Your task to perform on an android device: Clear the shopping cart on amazon.com. Add alienware aurora to the cart on amazon.com, then select checkout. Image 0: 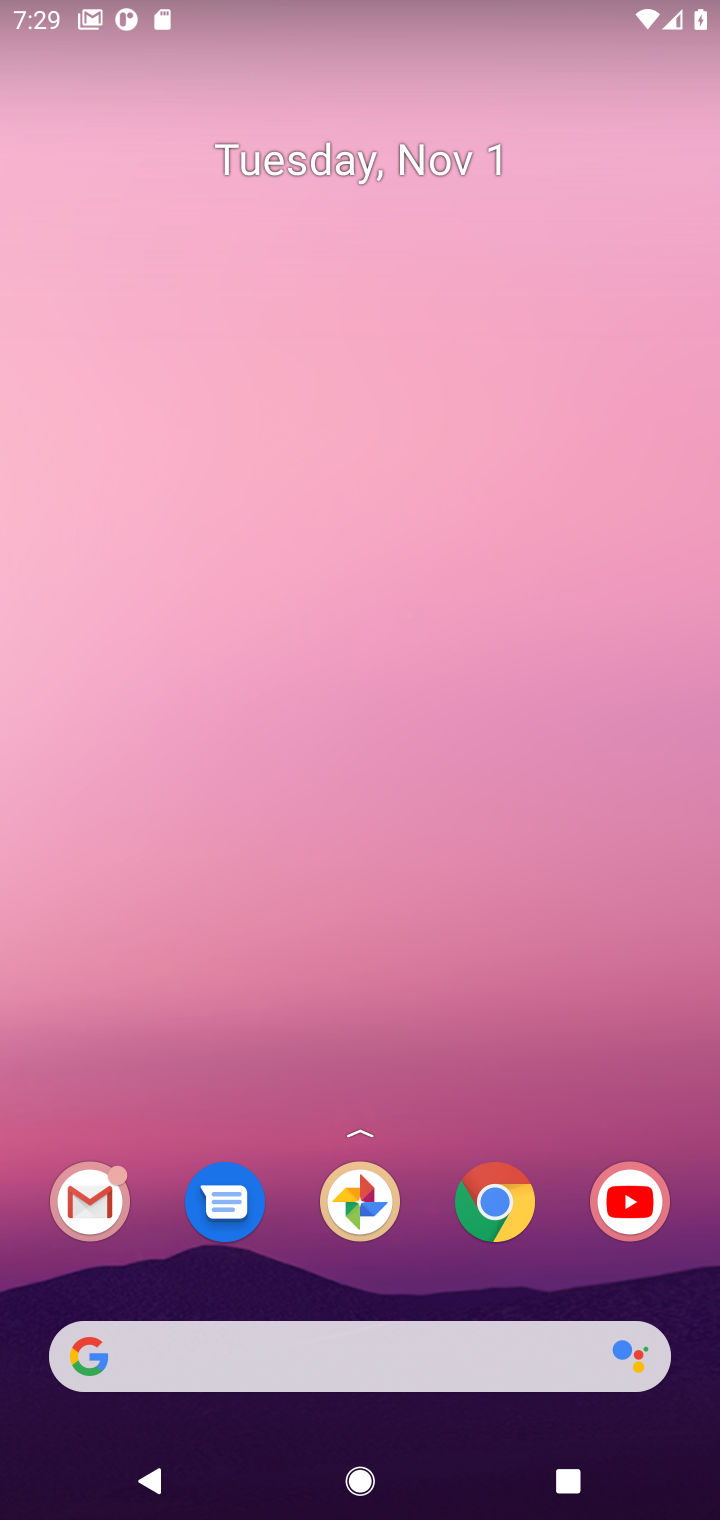
Step 0: drag from (446, 1418) to (466, 153)
Your task to perform on an android device: Clear the shopping cart on amazon.com. Add alienware aurora to the cart on amazon.com, then select checkout. Image 1: 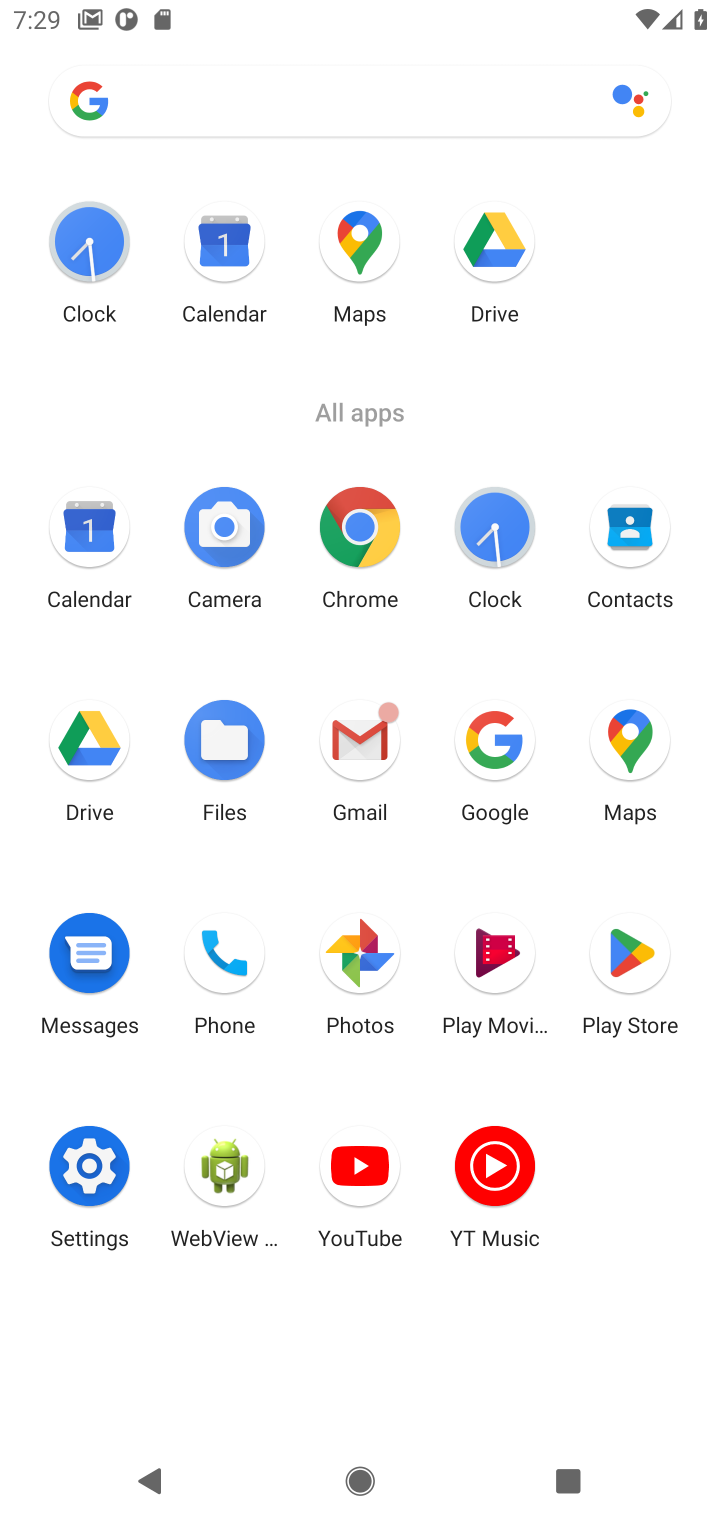
Step 1: click (360, 540)
Your task to perform on an android device: Clear the shopping cart on amazon.com. Add alienware aurora to the cart on amazon.com, then select checkout. Image 2: 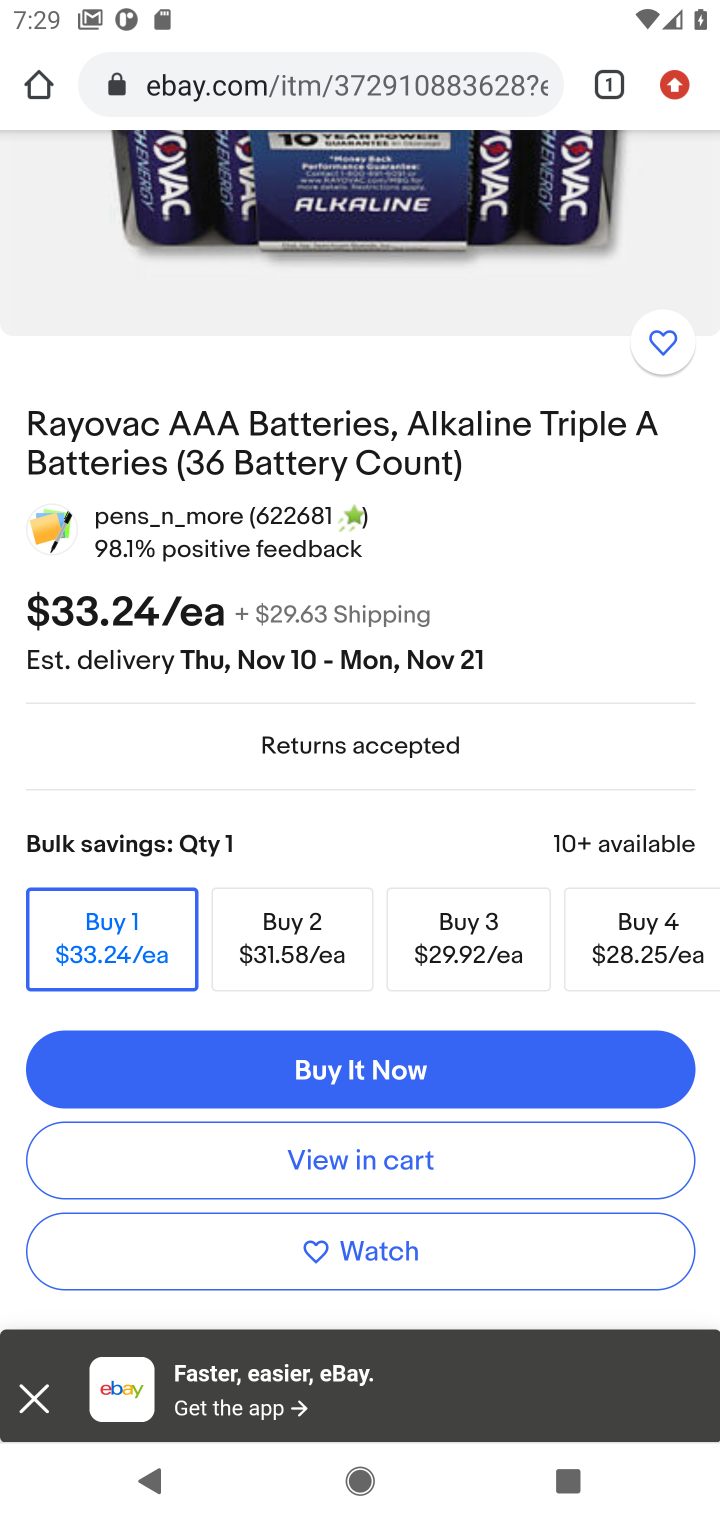
Step 2: click (188, 80)
Your task to perform on an android device: Clear the shopping cart on amazon.com. Add alienware aurora to the cart on amazon.com, then select checkout. Image 3: 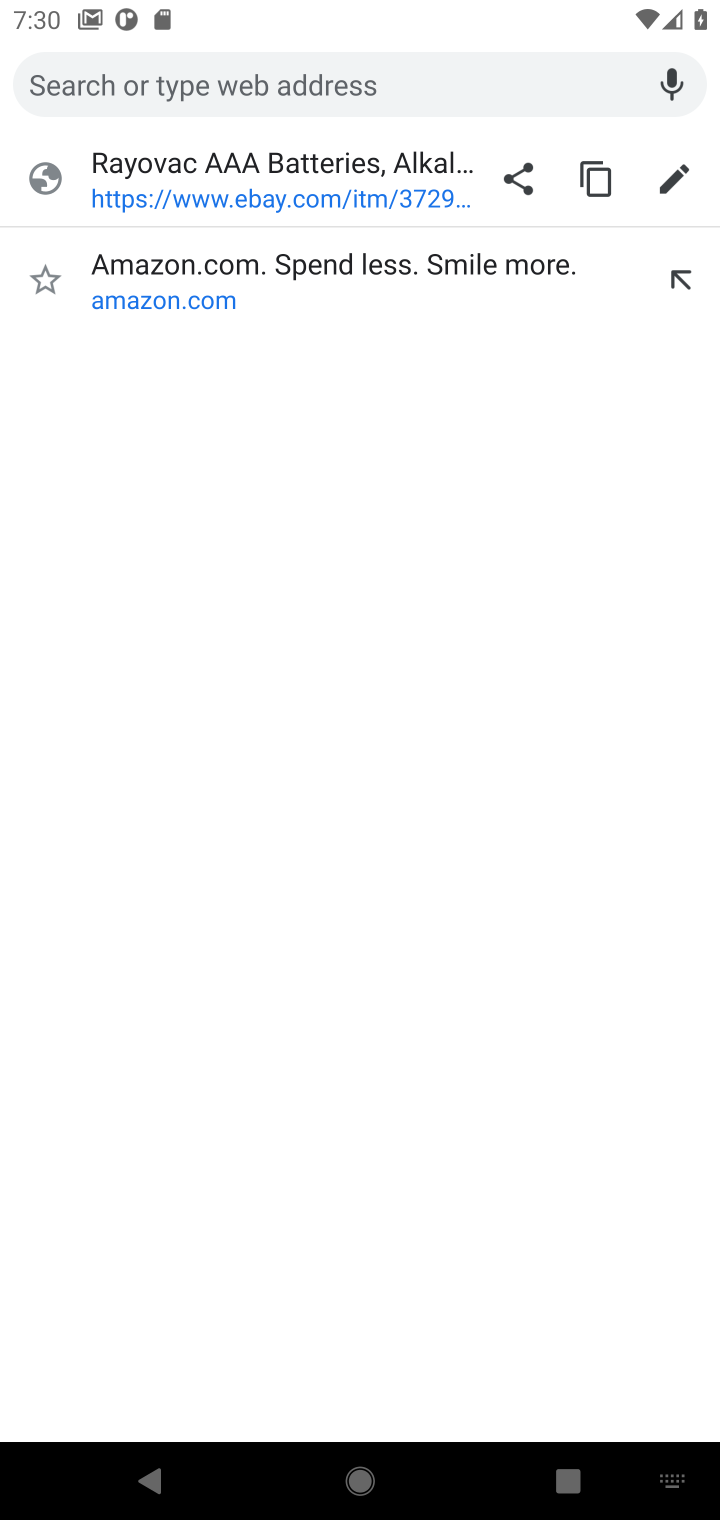
Step 3: type "amazon.com"
Your task to perform on an android device: Clear the shopping cart on amazon.com. Add alienware aurora to the cart on amazon.com, then select checkout. Image 4: 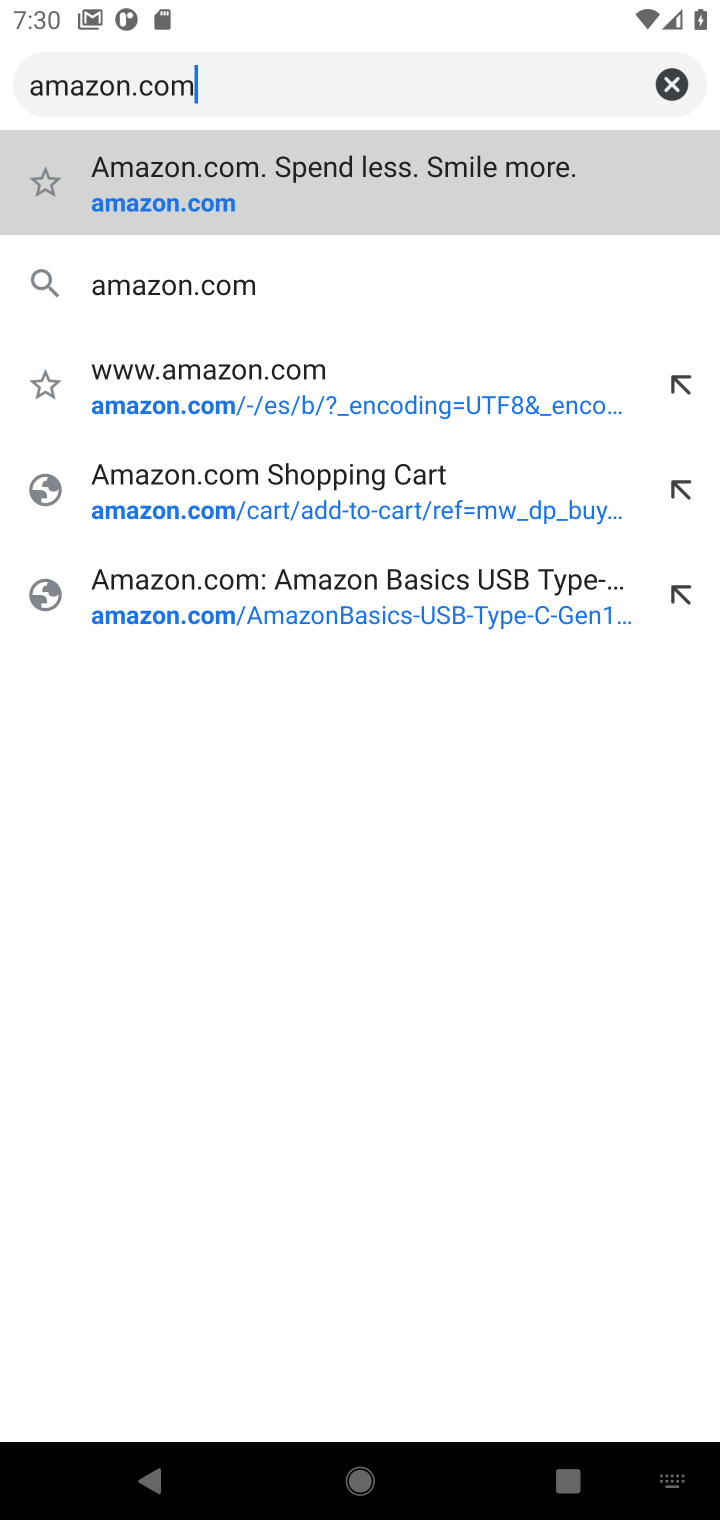
Step 4: click (187, 196)
Your task to perform on an android device: Clear the shopping cart on amazon.com. Add alienware aurora to the cart on amazon.com, then select checkout. Image 5: 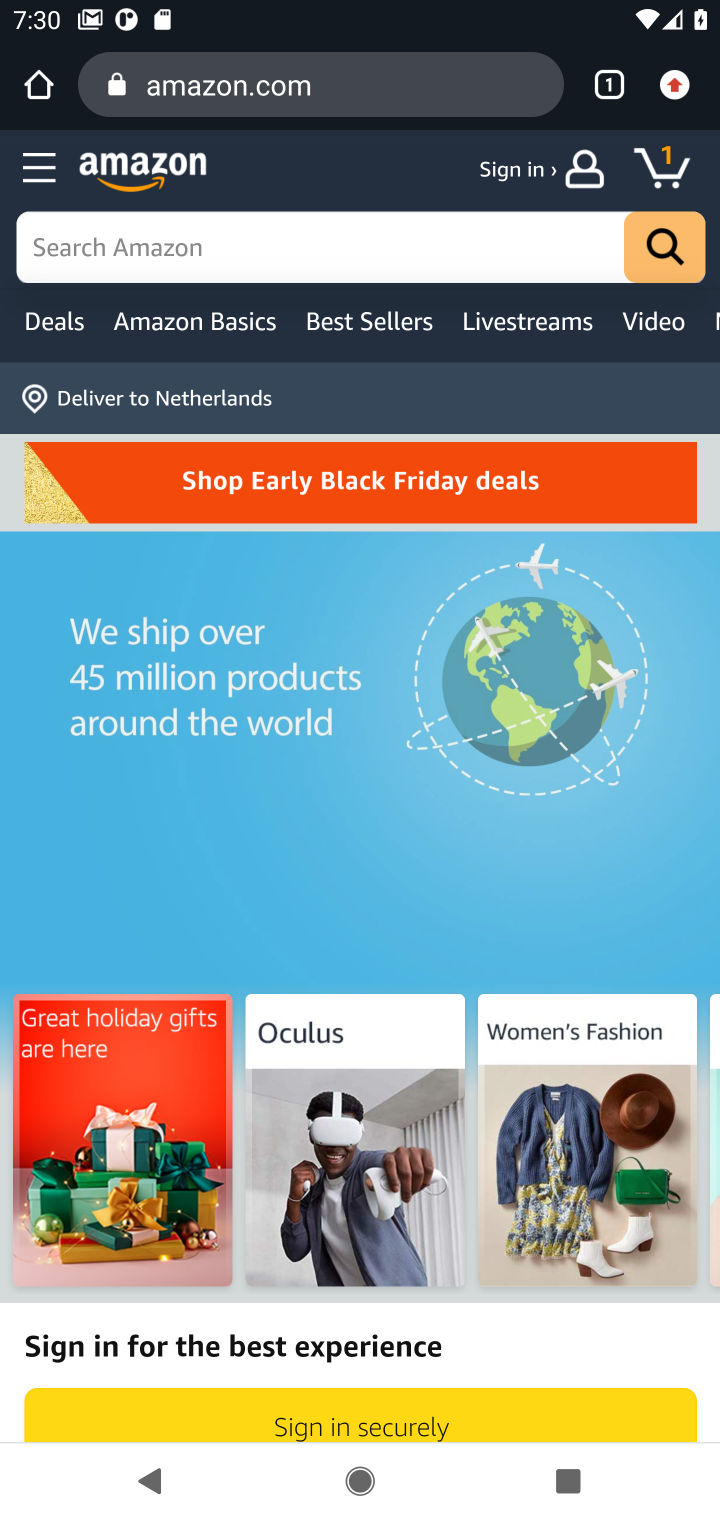
Step 5: click (489, 252)
Your task to perform on an android device: Clear the shopping cart on amazon.com. Add alienware aurora to the cart on amazon.com, then select checkout. Image 6: 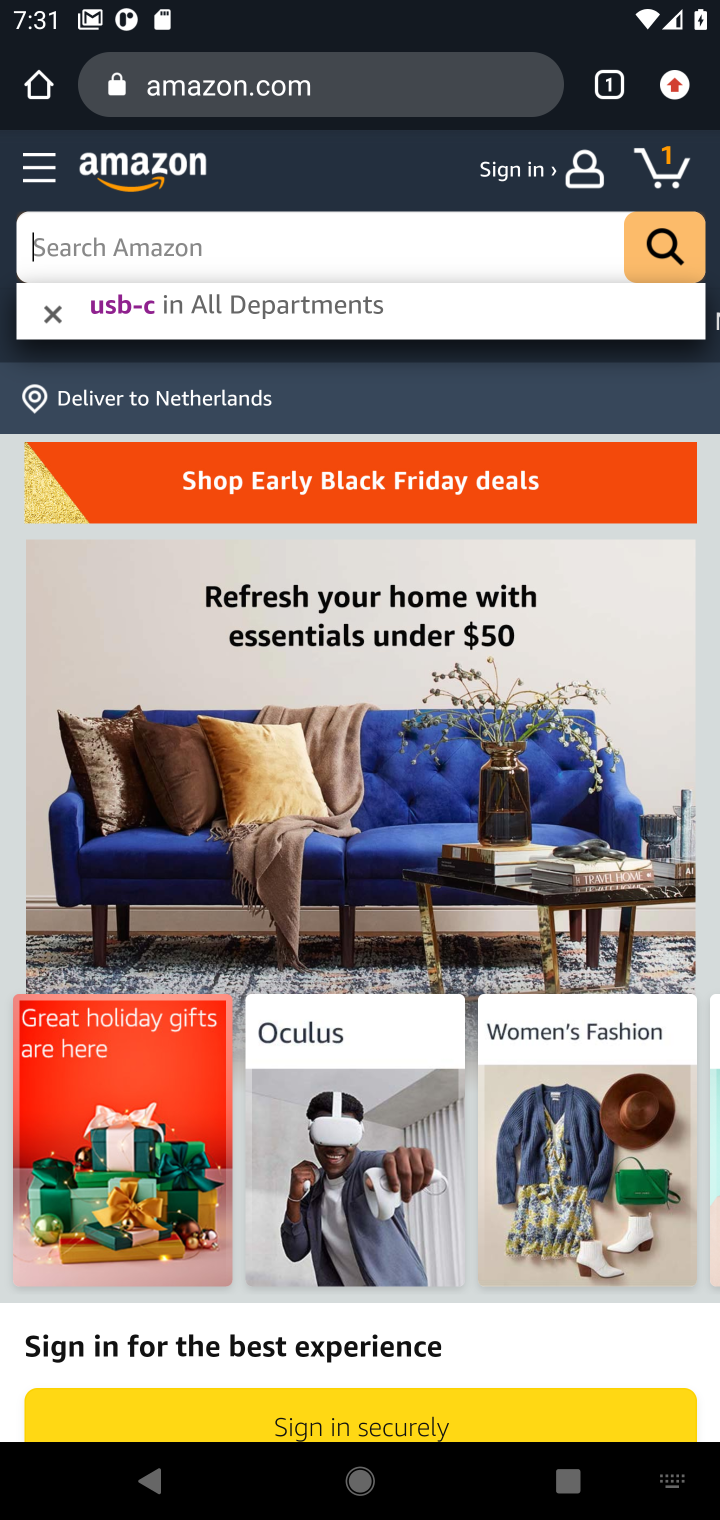
Step 6: type "alienware aurora"
Your task to perform on an android device: Clear the shopping cart on amazon.com. Add alienware aurora to the cart on amazon.com, then select checkout. Image 7: 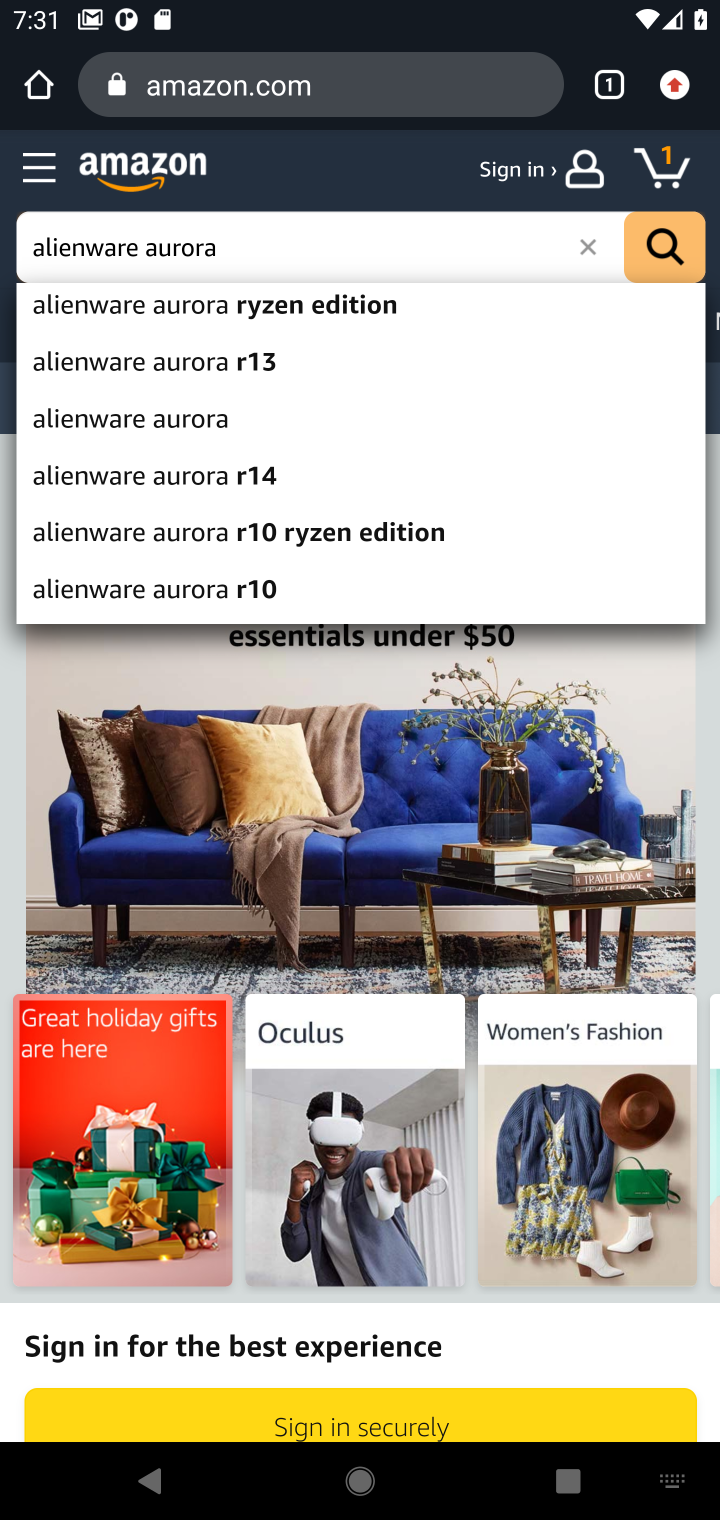
Step 7: click (665, 170)
Your task to perform on an android device: Clear the shopping cart on amazon.com. Add alienware aurora to the cart on amazon.com, then select checkout. Image 8: 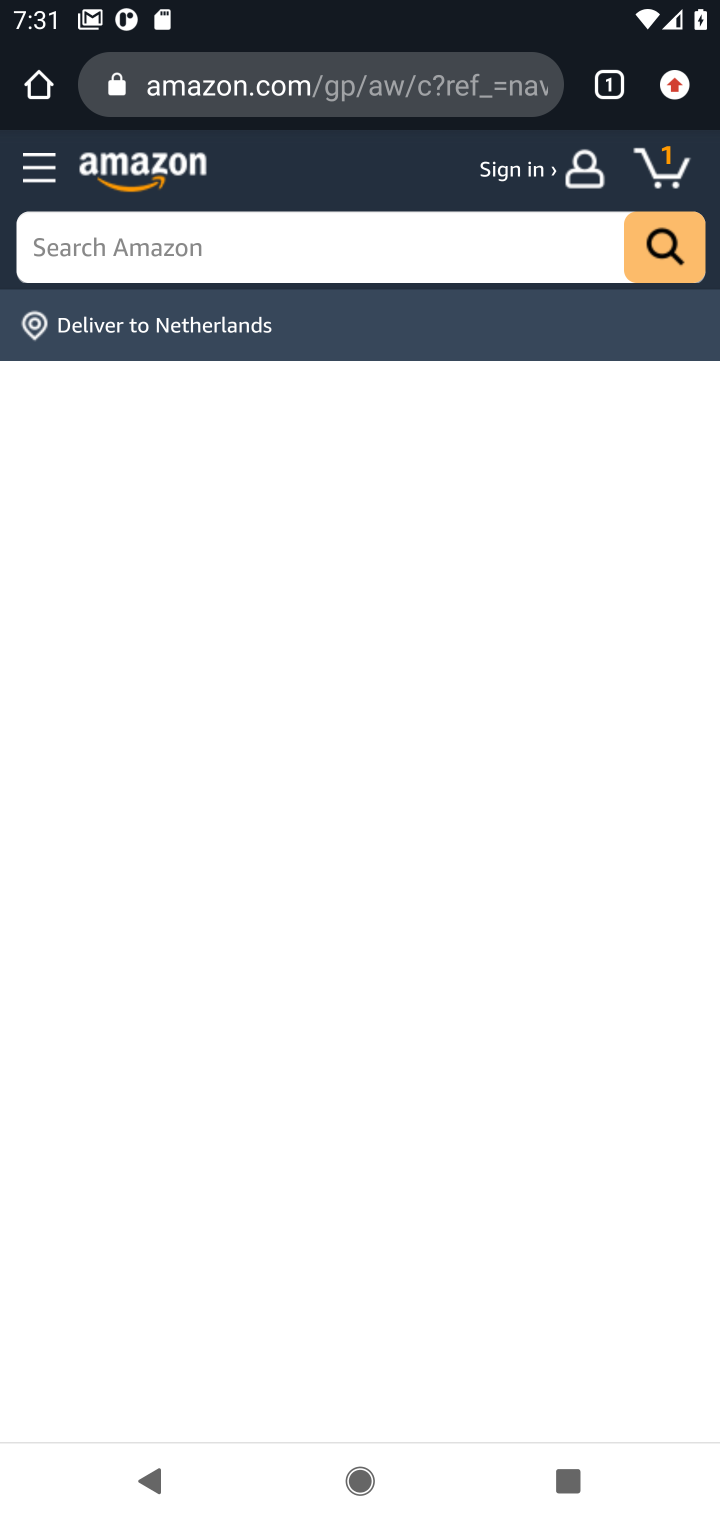
Step 8: click (665, 170)
Your task to perform on an android device: Clear the shopping cart on amazon.com. Add alienware aurora to the cart on amazon.com, then select checkout. Image 9: 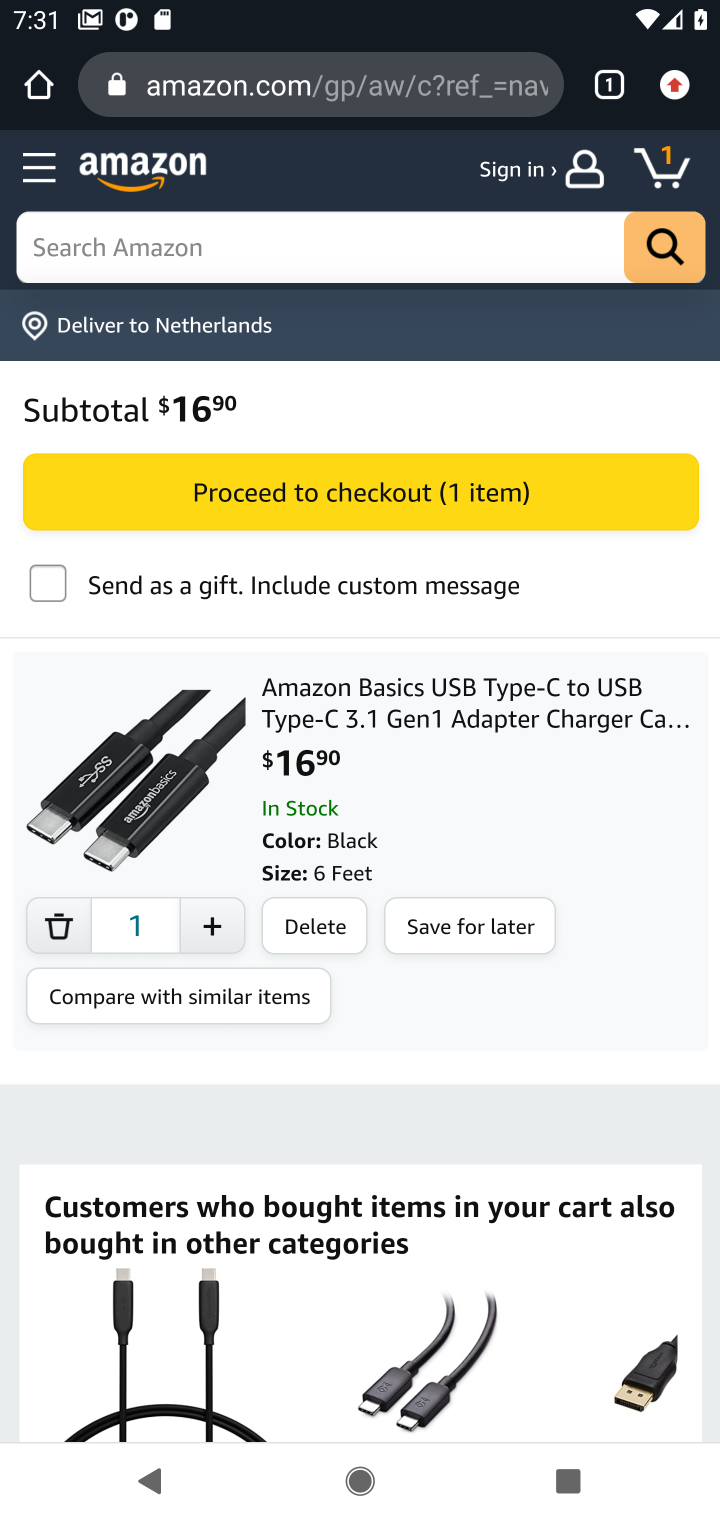
Step 9: click (53, 924)
Your task to perform on an android device: Clear the shopping cart on amazon.com. Add alienware aurora to the cart on amazon.com, then select checkout. Image 10: 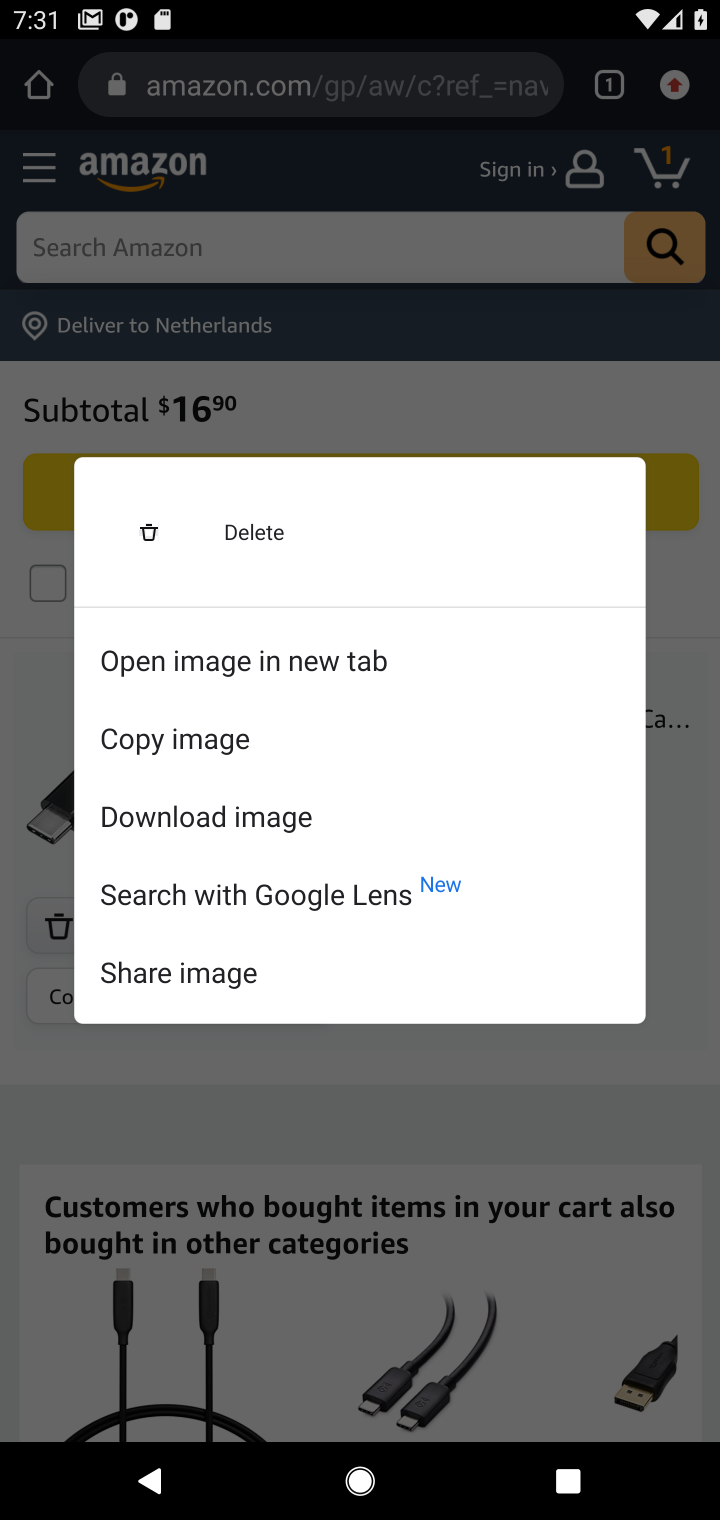
Step 10: click (242, 529)
Your task to perform on an android device: Clear the shopping cart on amazon.com. Add alienware aurora to the cart on amazon.com, then select checkout. Image 11: 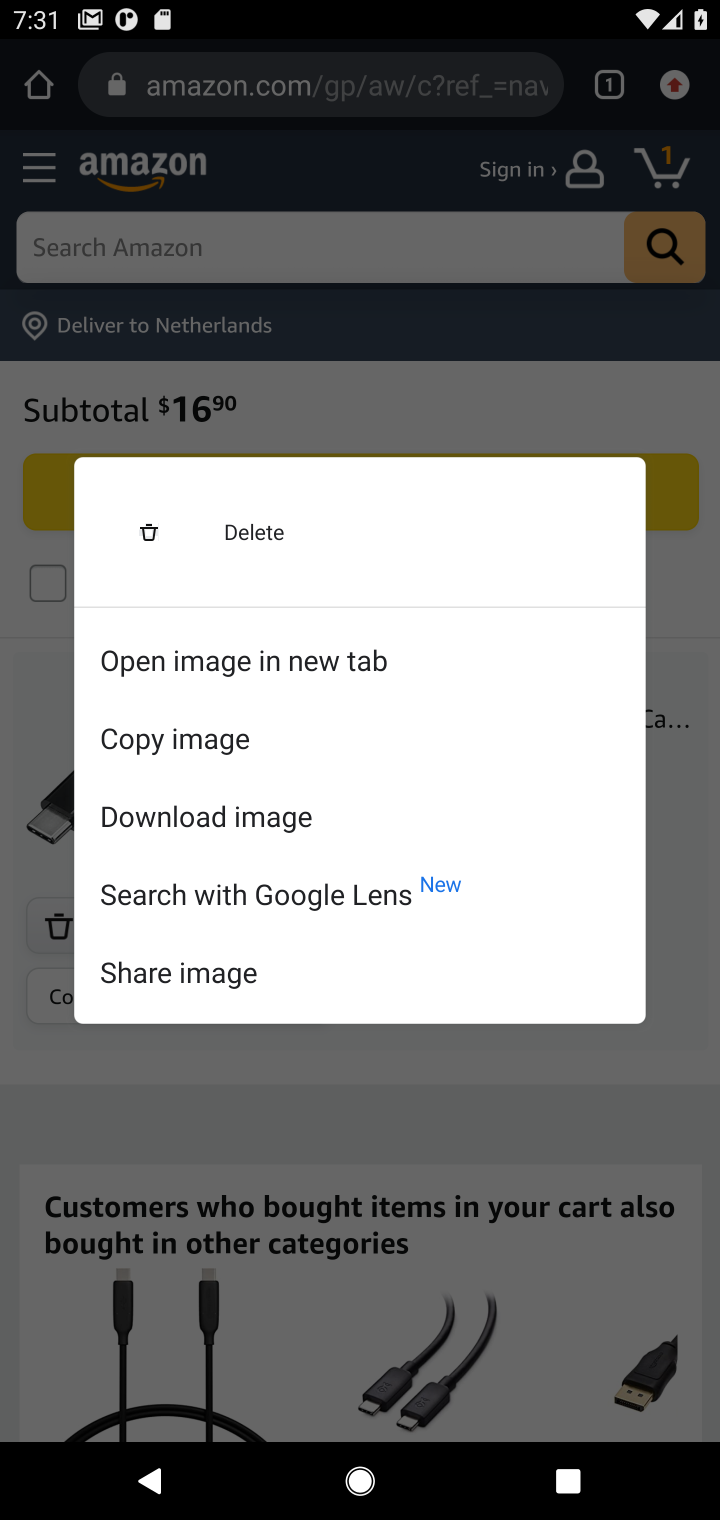
Step 11: click (244, 524)
Your task to perform on an android device: Clear the shopping cart on amazon.com. Add alienware aurora to the cart on amazon.com, then select checkout. Image 12: 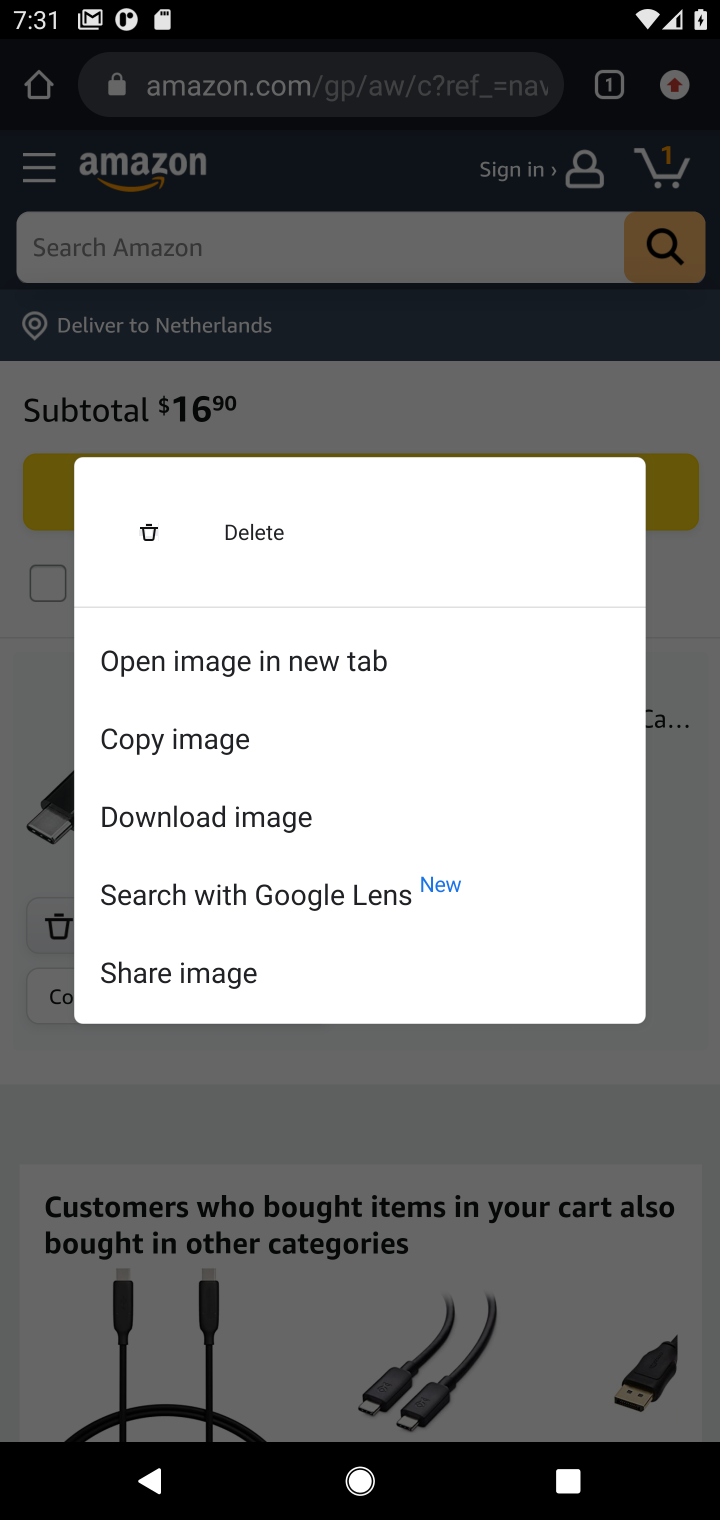
Step 12: click (144, 528)
Your task to perform on an android device: Clear the shopping cart on amazon.com. Add alienware aurora to the cart on amazon.com, then select checkout. Image 13: 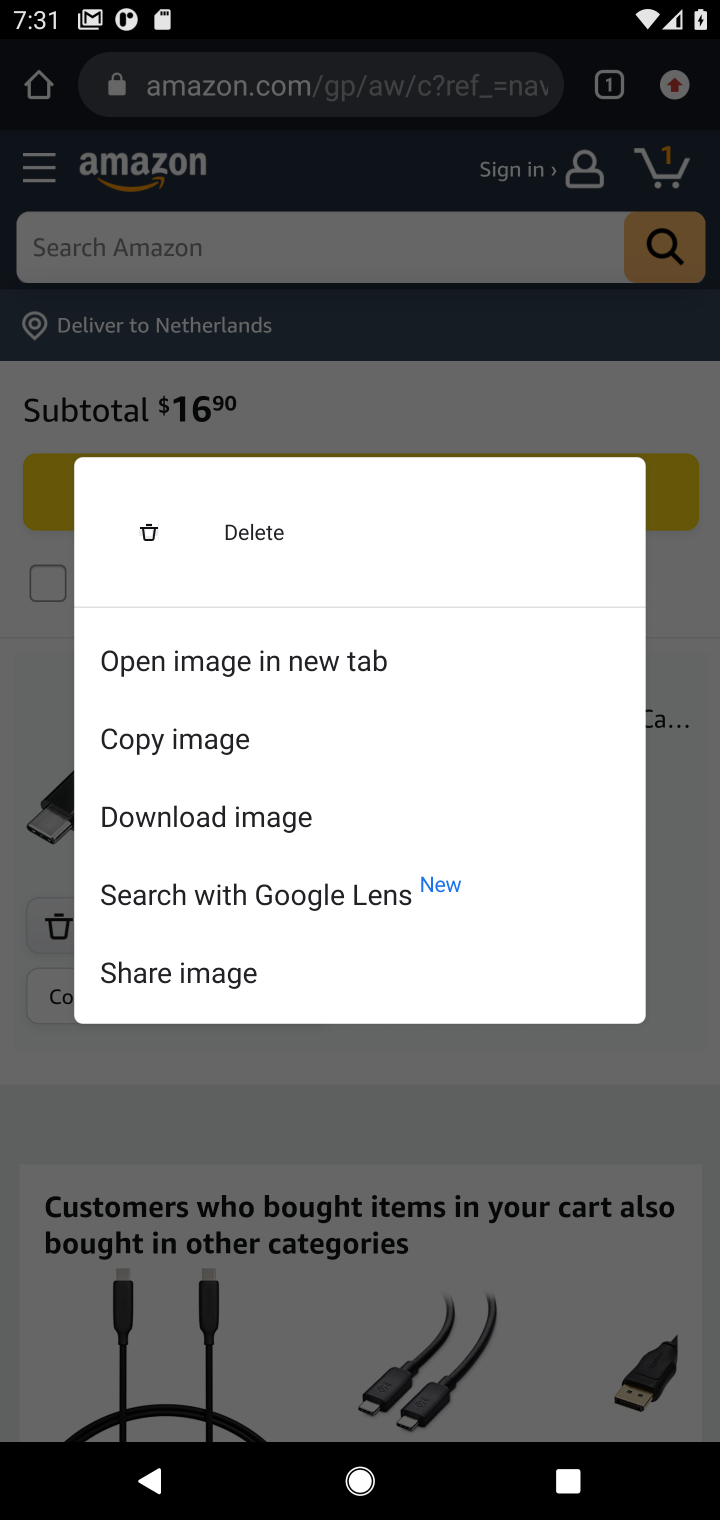
Step 13: click (266, 529)
Your task to perform on an android device: Clear the shopping cart on amazon.com. Add alienware aurora to the cart on amazon.com, then select checkout. Image 14: 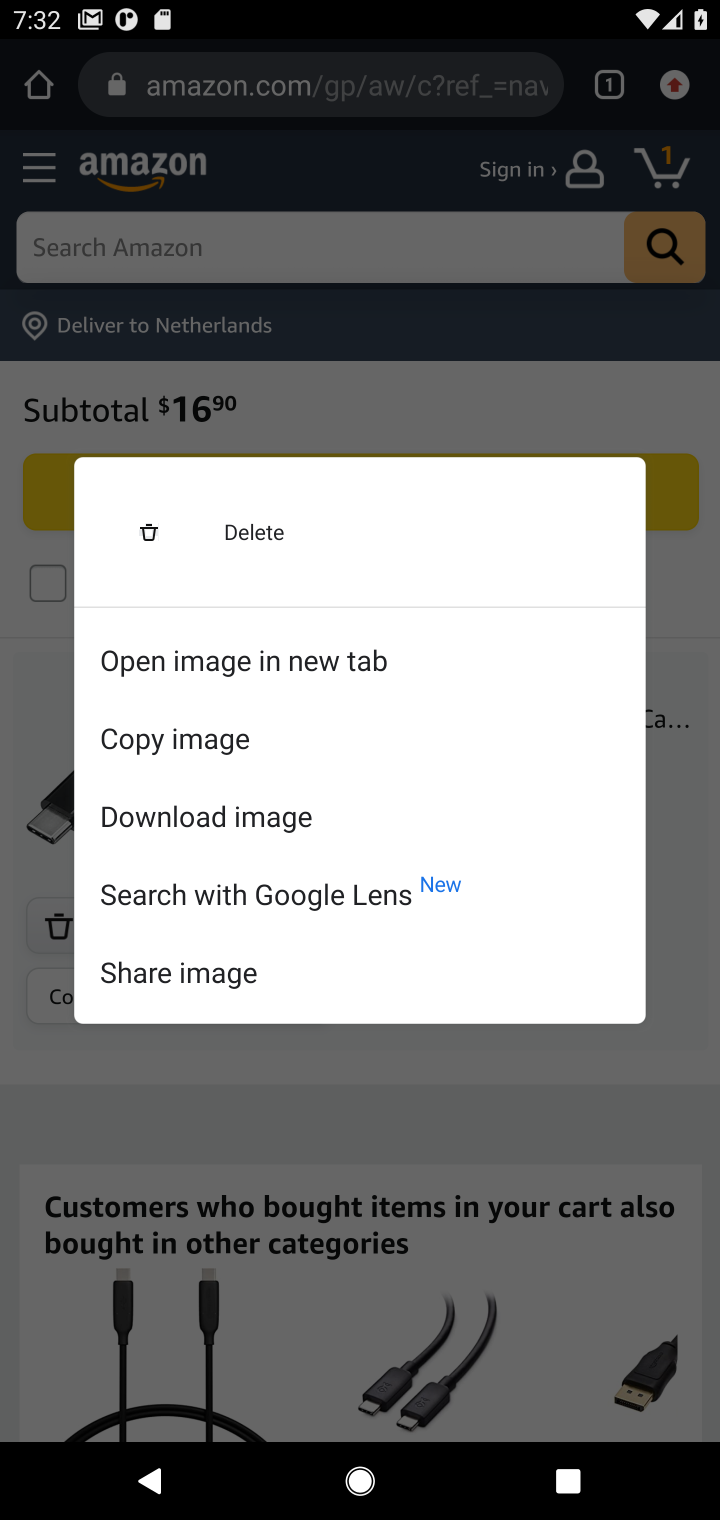
Step 14: click (255, 530)
Your task to perform on an android device: Clear the shopping cart on amazon.com. Add alienware aurora to the cart on amazon.com, then select checkout. Image 15: 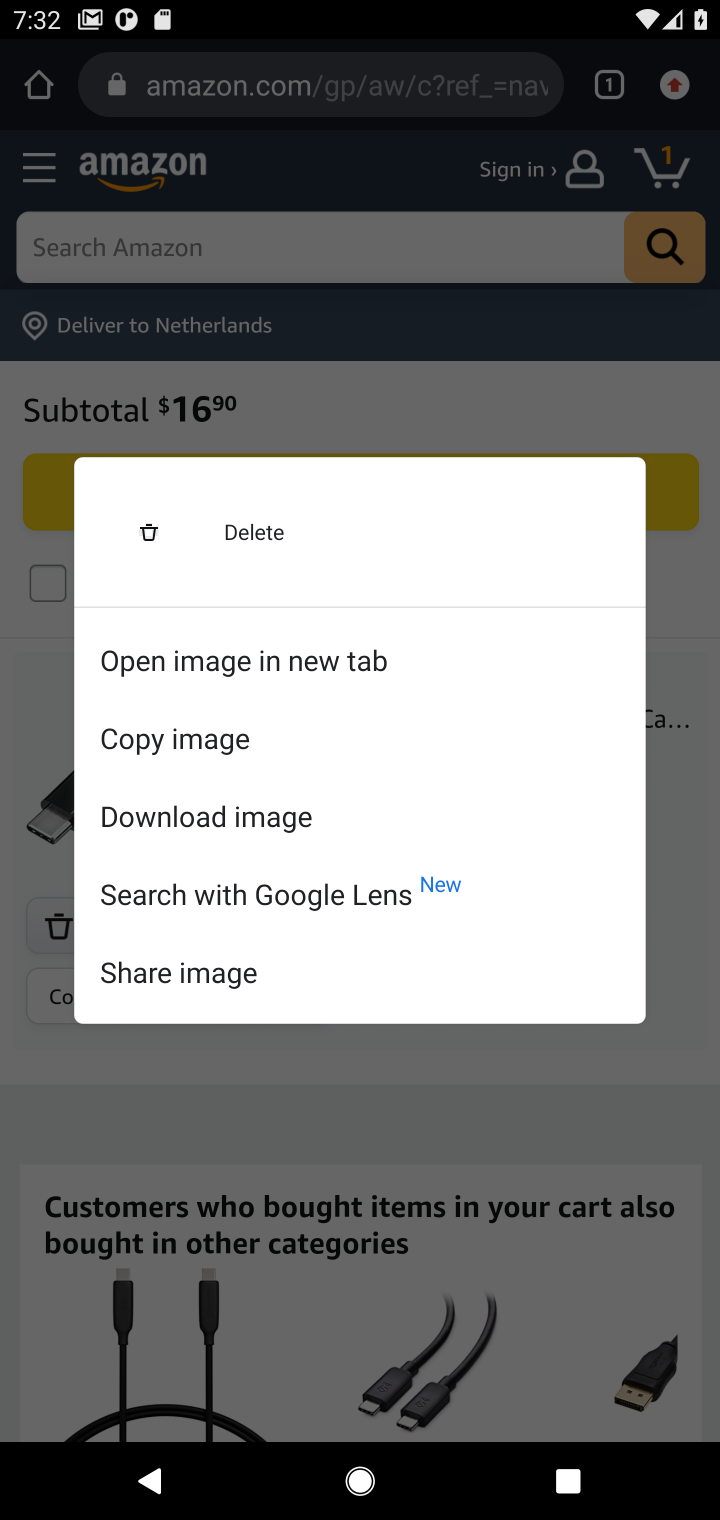
Step 15: click (255, 530)
Your task to perform on an android device: Clear the shopping cart on amazon.com. Add alienware aurora to the cart on amazon.com, then select checkout. Image 16: 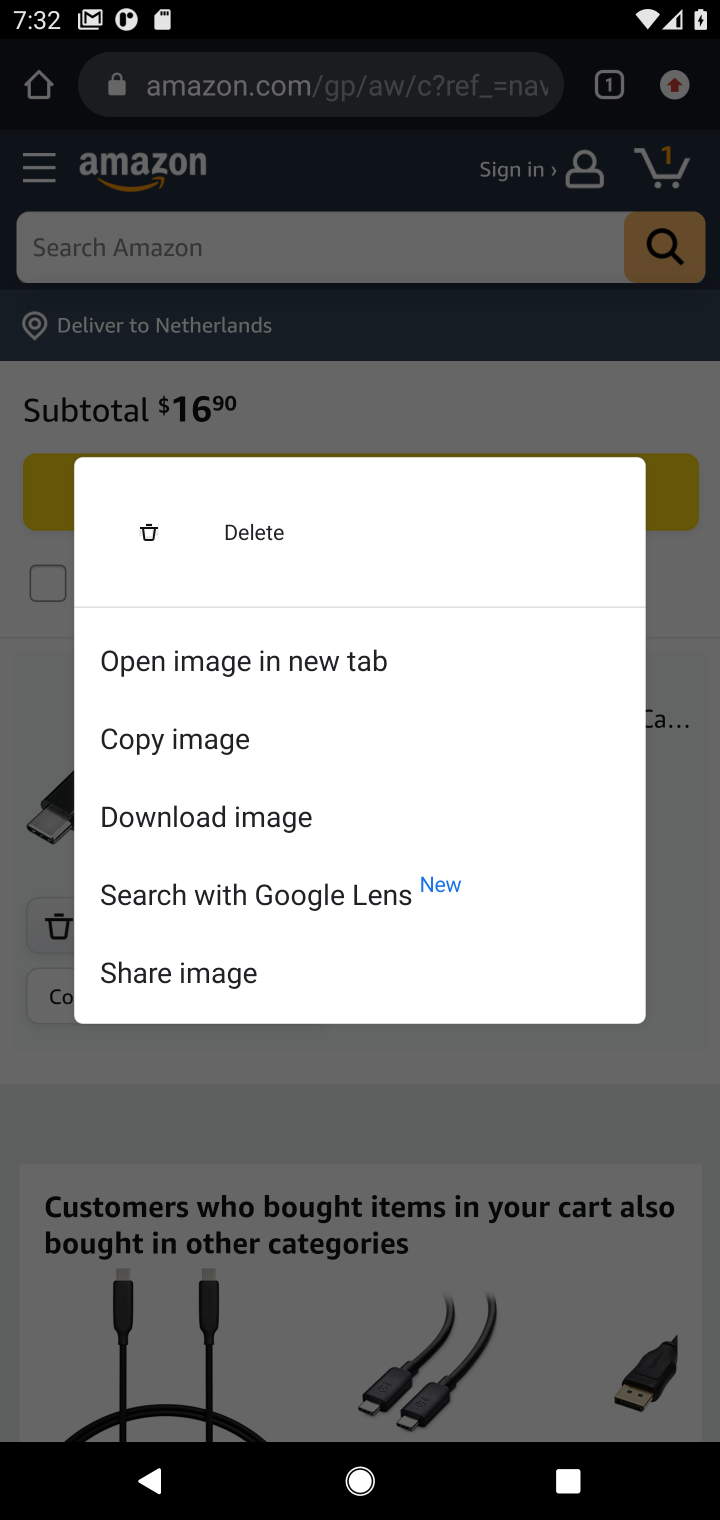
Step 16: click (255, 530)
Your task to perform on an android device: Clear the shopping cart on amazon.com. Add alienware aurora to the cart on amazon.com, then select checkout. Image 17: 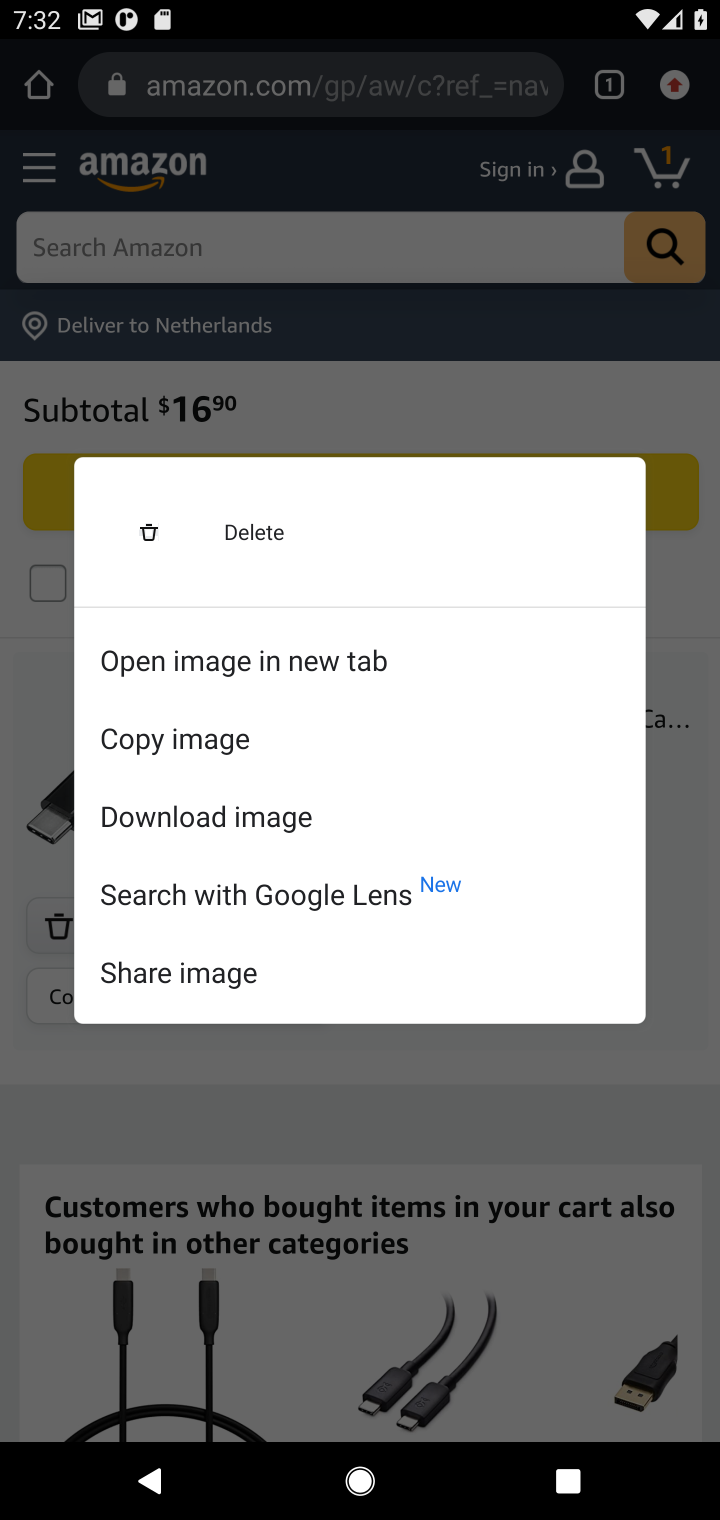
Step 17: click (240, 524)
Your task to perform on an android device: Clear the shopping cart on amazon.com. Add alienware aurora to the cart on amazon.com, then select checkout. Image 18: 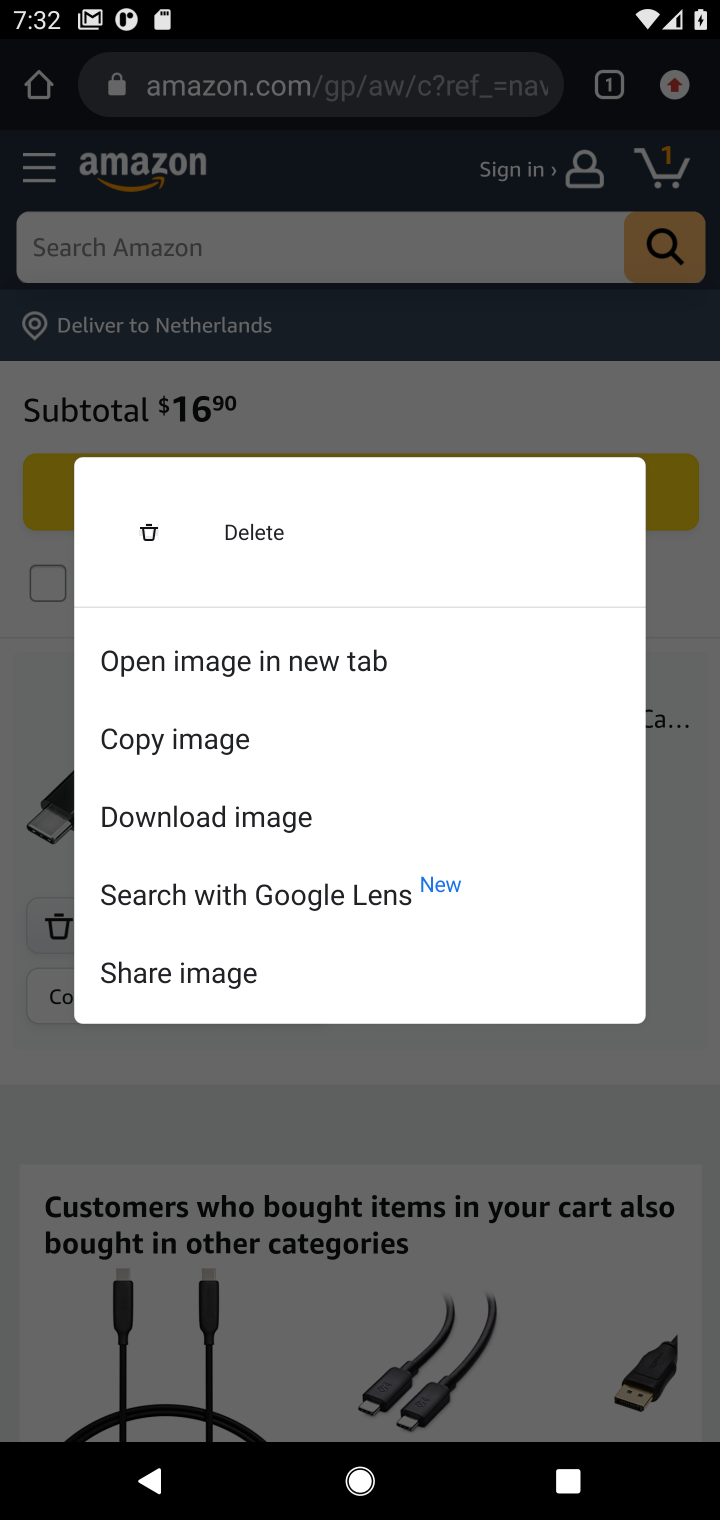
Step 18: click (148, 524)
Your task to perform on an android device: Clear the shopping cart on amazon.com. Add alienware aurora to the cart on amazon.com, then select checkout. Image 19: 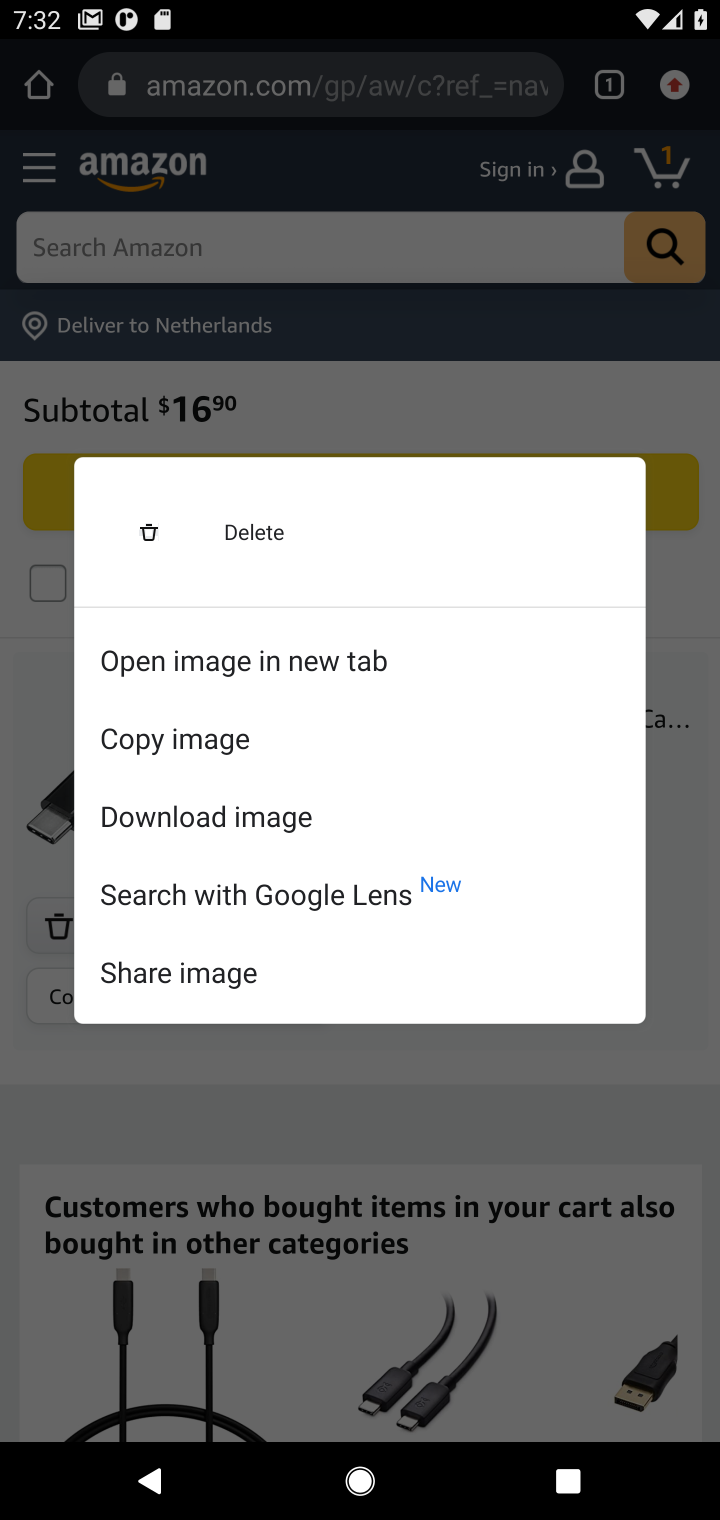
Step 19: click (499, 389)
Your task to perform on an android device: Clear the shopping cart on amazon.com. Add alienware aurora to the cart on amazon.com, then select checkout. Image 20: 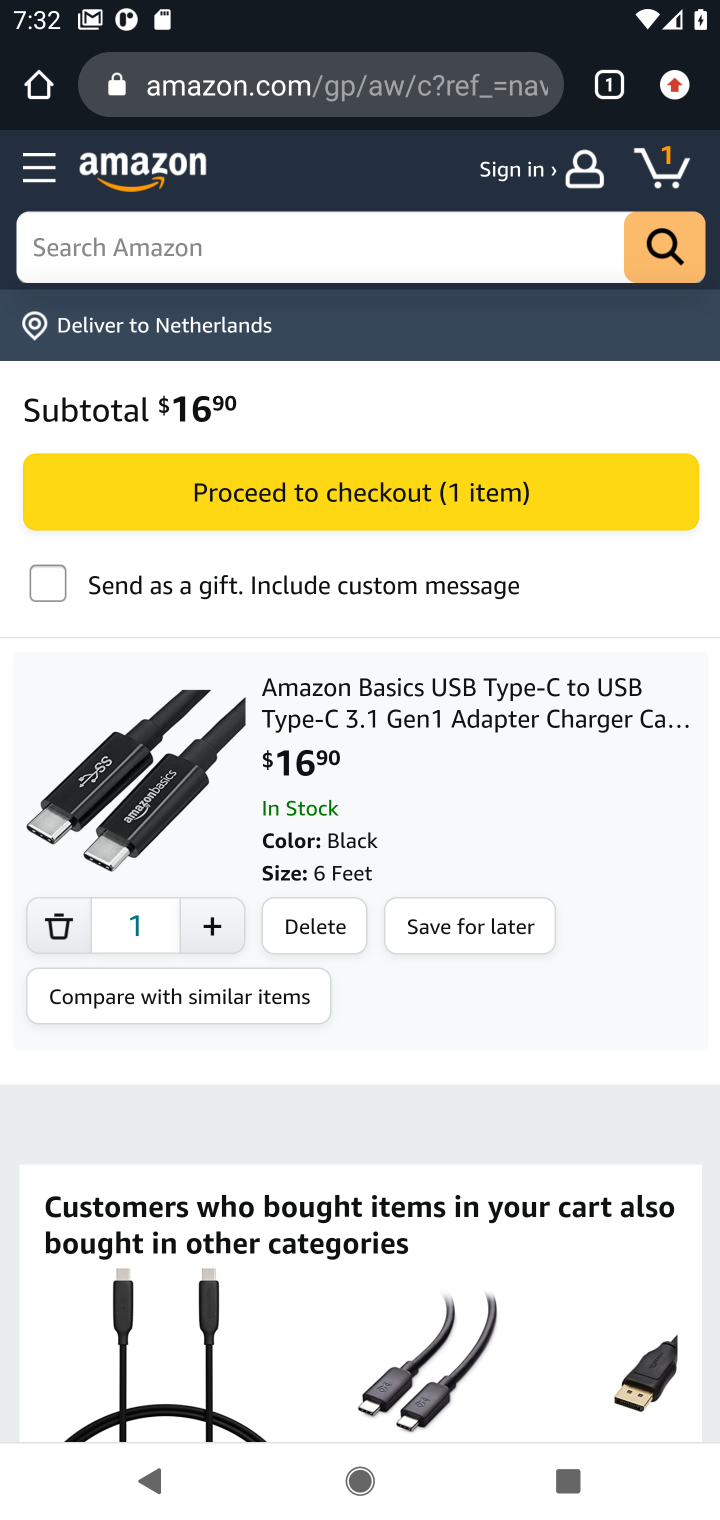
Step 20: click (327, 927)
Your task to perform on an android device: Clear the shopping cart on amazon.com. Add alienware aurora to the cart on amazon.com, then select checkout. Image 21: 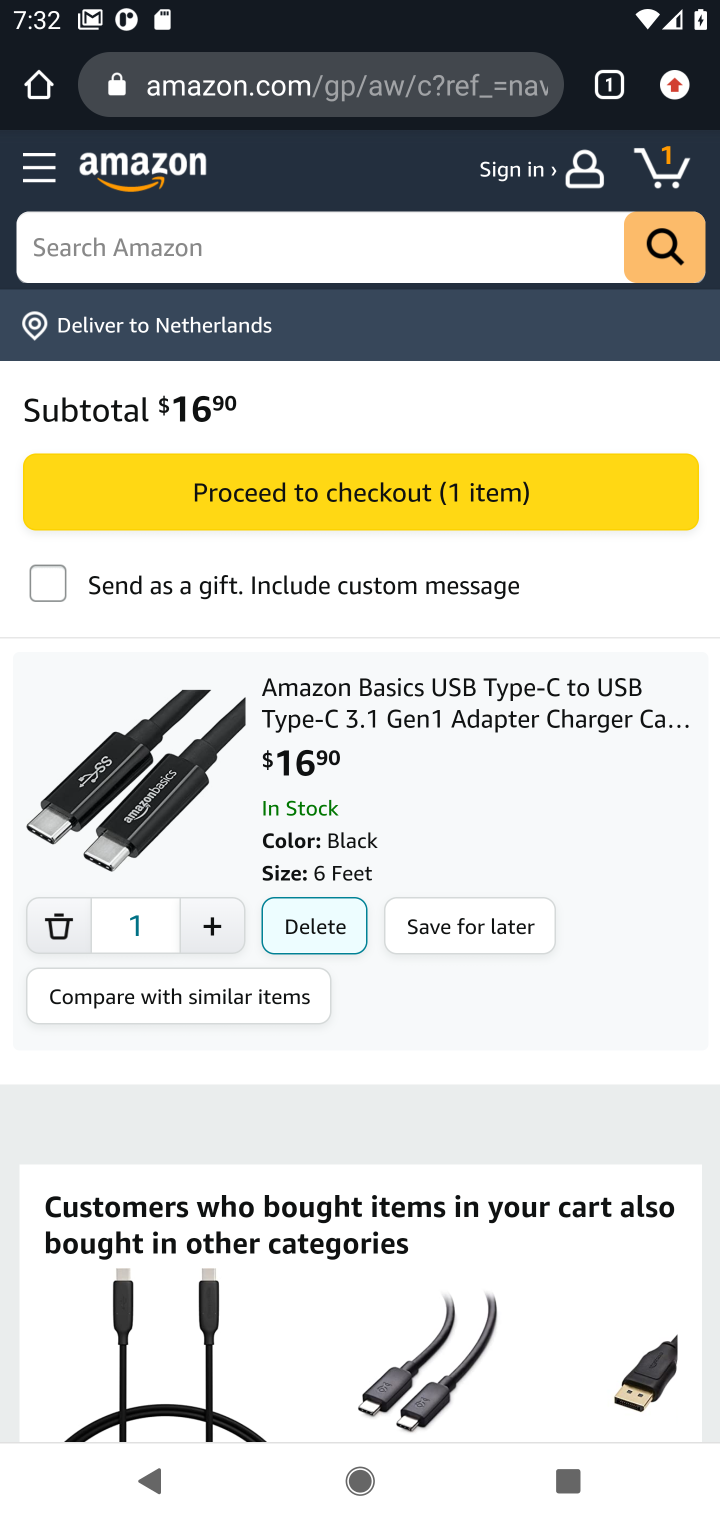
Step 21: click (334, 907)
Your task to perform on an android device: Clear the shopping cart on amazon.com. Add alienware aurora to the cart on amazon.com, then select checkout. Image 22: 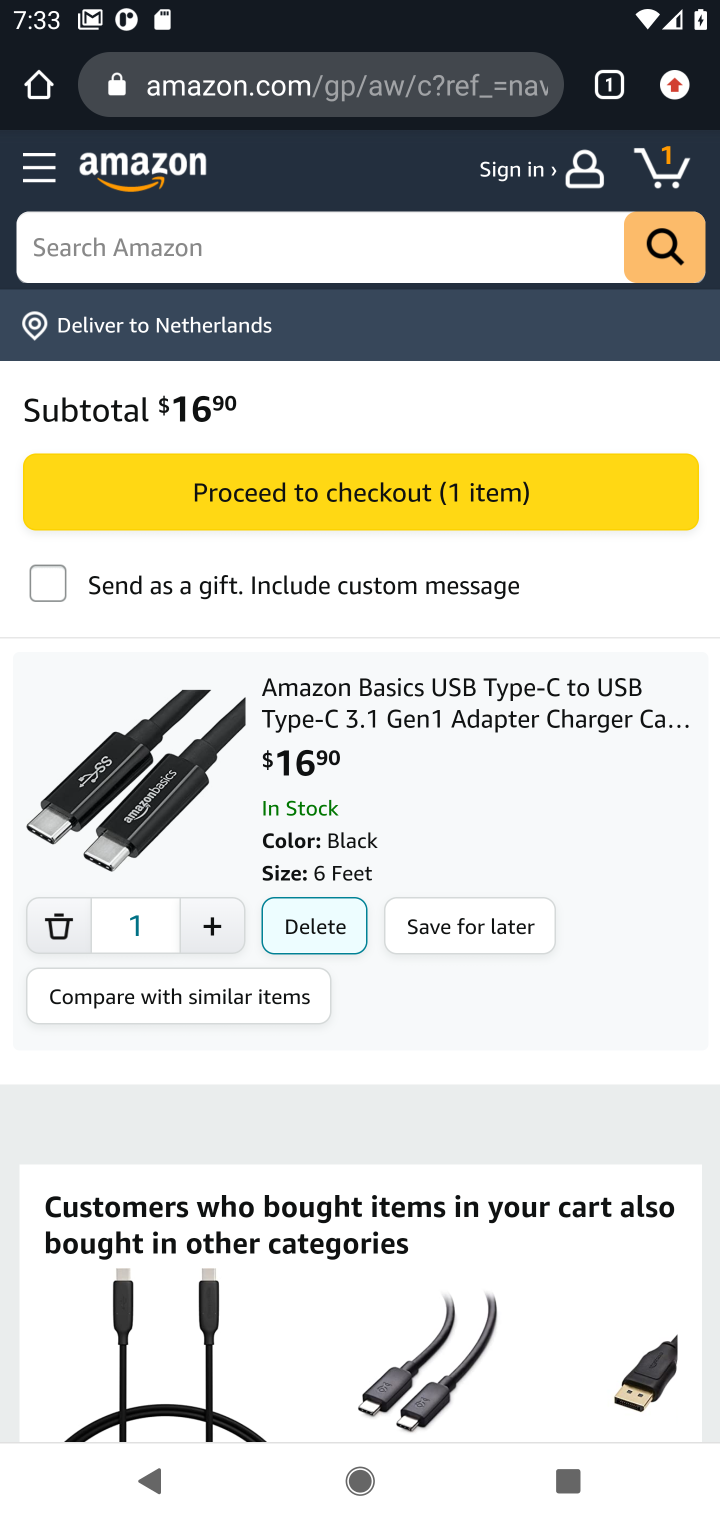
Step 22: click (292, 922)
Your task to perform on an android device: Clear the shopping cart on amazon.com. Add alienware aurora to the cart on amazon.com, then select checkout. Image 23: 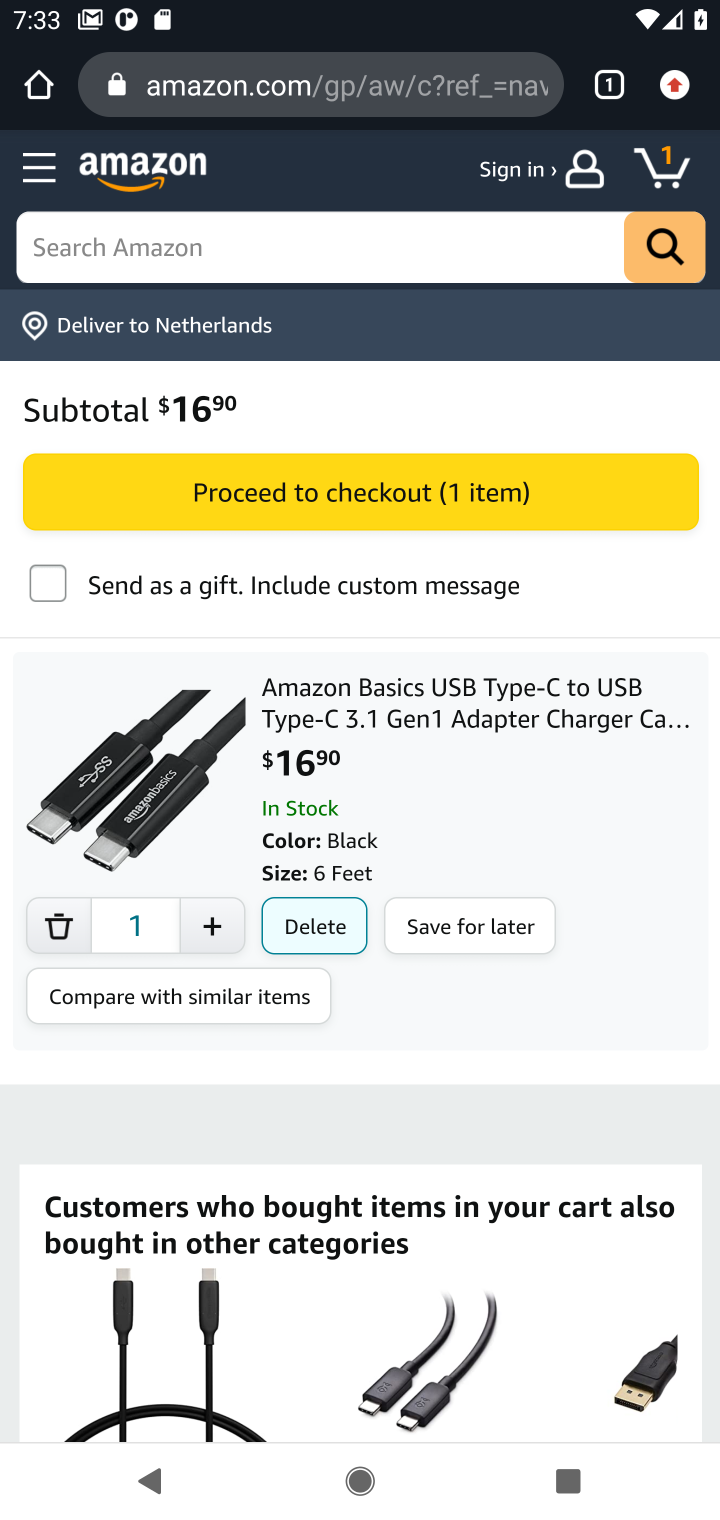
Step 23: click (325, 920)
Your task to perform on an android device: Clear the shopping cart on amazon.com. Add alienware aurora to the cart on amazon.com, then select checkout. Image 24: 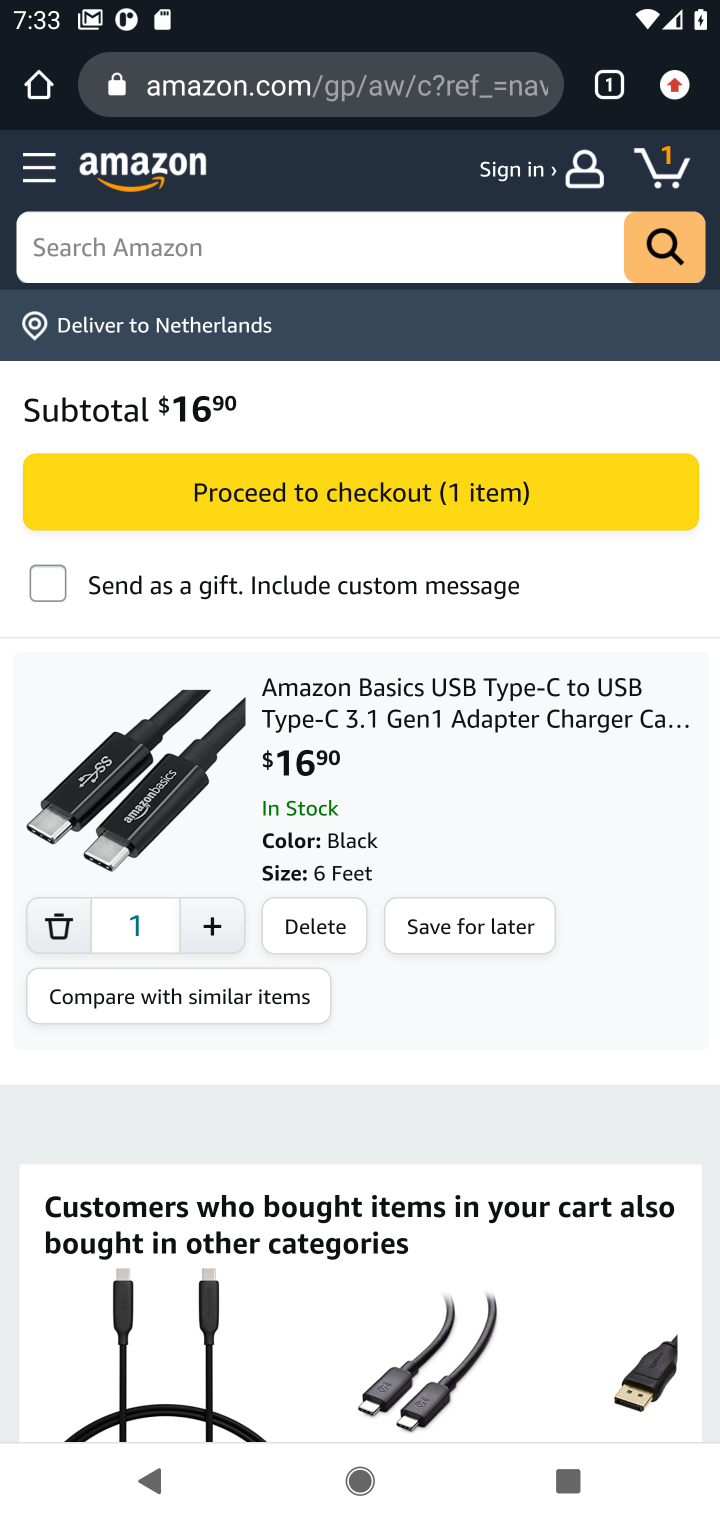
Step 24: click (594, 973)
Your task to perform on an android device: Clear the shopping cart on amazon.com. Add alienware aurora to the cart on amazon.com, then select checkout. Image 25: 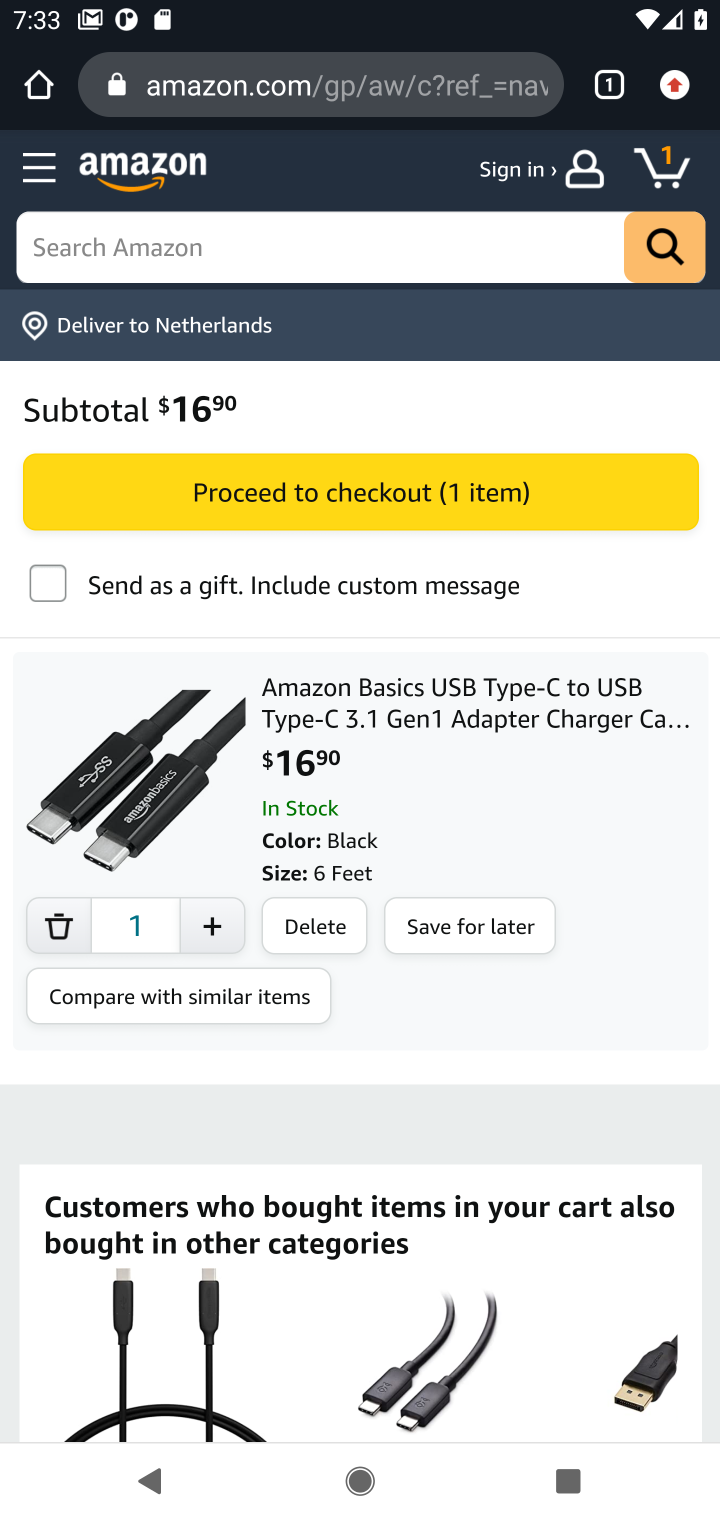
Step 25: click (321, 922)
Your task to perform on an android device: Clear the shopping cart on amazon.com. Add alienware aurora to the cart on amazon.com, then select checkout. Image 26: 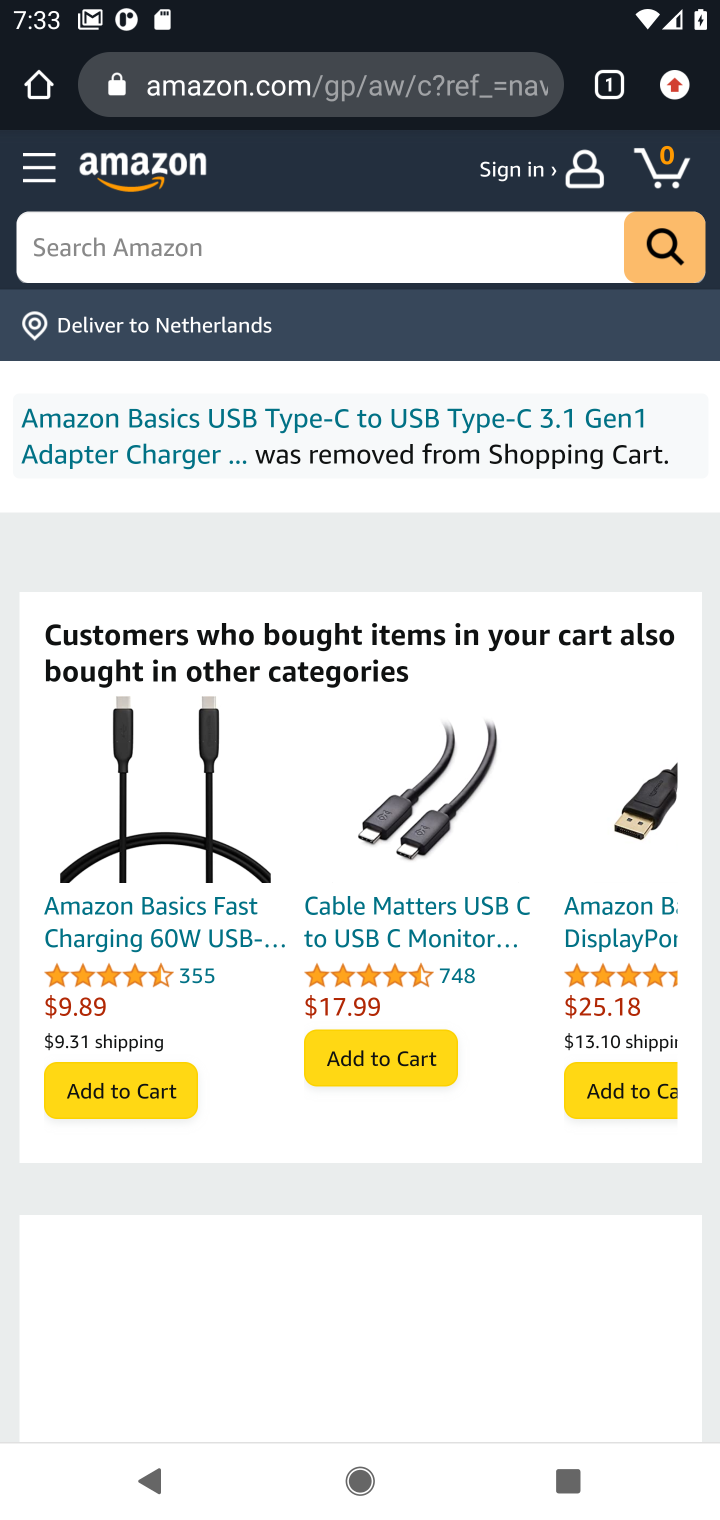
Step 26: click (300, 259)
Your task to perform on an android device: Clear the shopping cart on amazon.com. Add alienware aurora to the cart on amazon.com, then select checkout. Image 27: 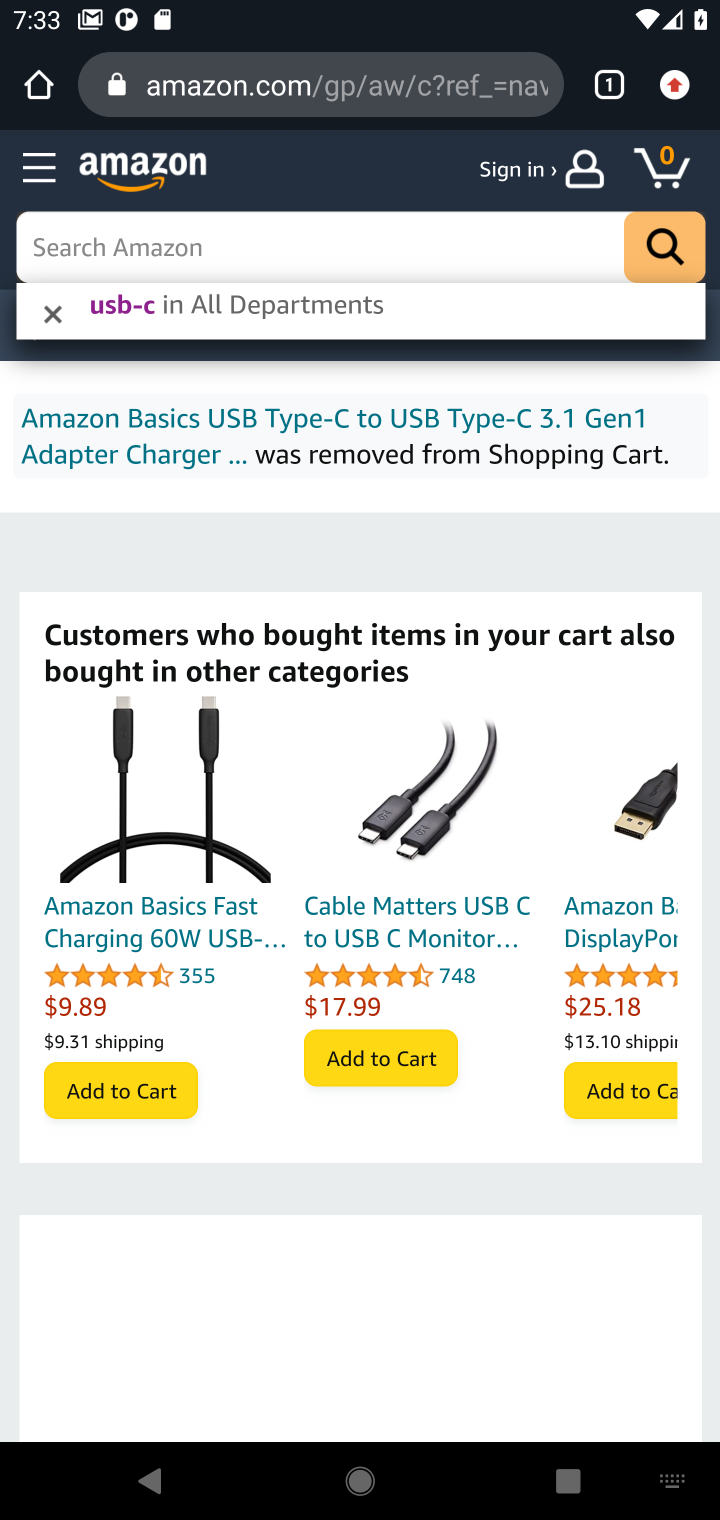
Step 27: type "alienware aurora"
Your task to perform on an android device: Clear the shopping cart on amazon.com. Add alienware aurora to the cart on amazon.com, then select checkout. Image 28: 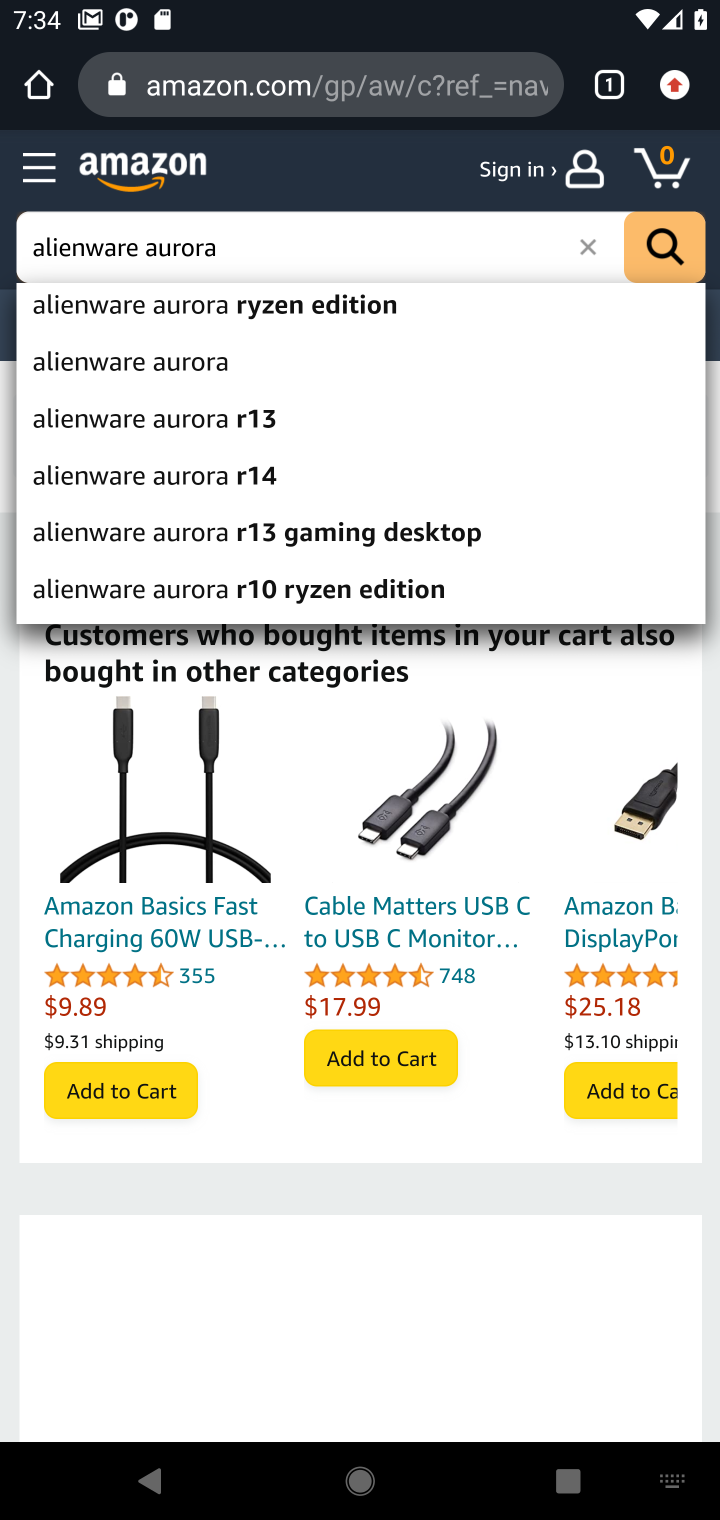
Step 28: click (666, 233)
Your task to perform on an android device: Clear the shopping cart on amazon.com. Add alienware aurora to the cart on amazon.com, then select checkout. Image 29: 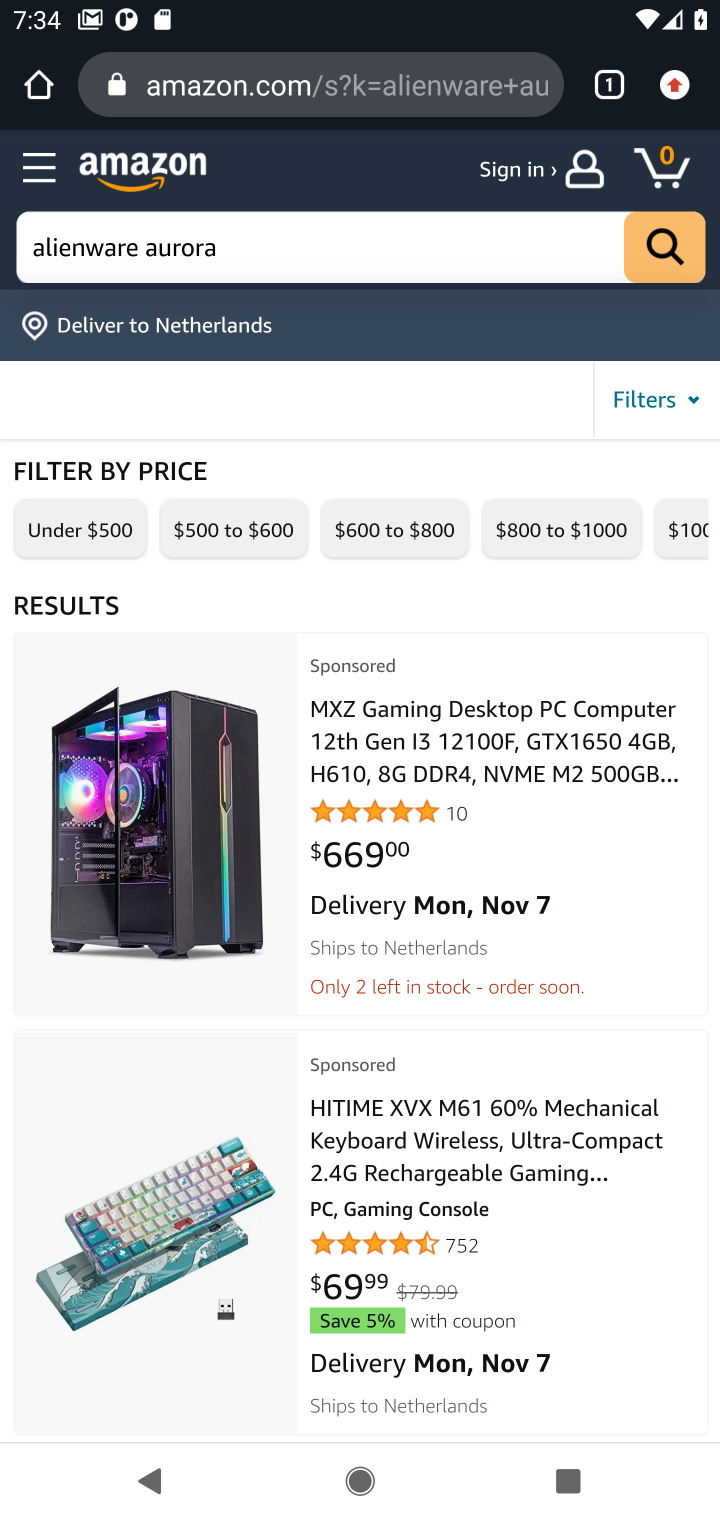
Step 29: click (46, 681)
Your task to perform on an android device: Clear the shopping cart on amazon.com. Add alienware aurora to the cart on amazon.com, then select checkout. Image 30: 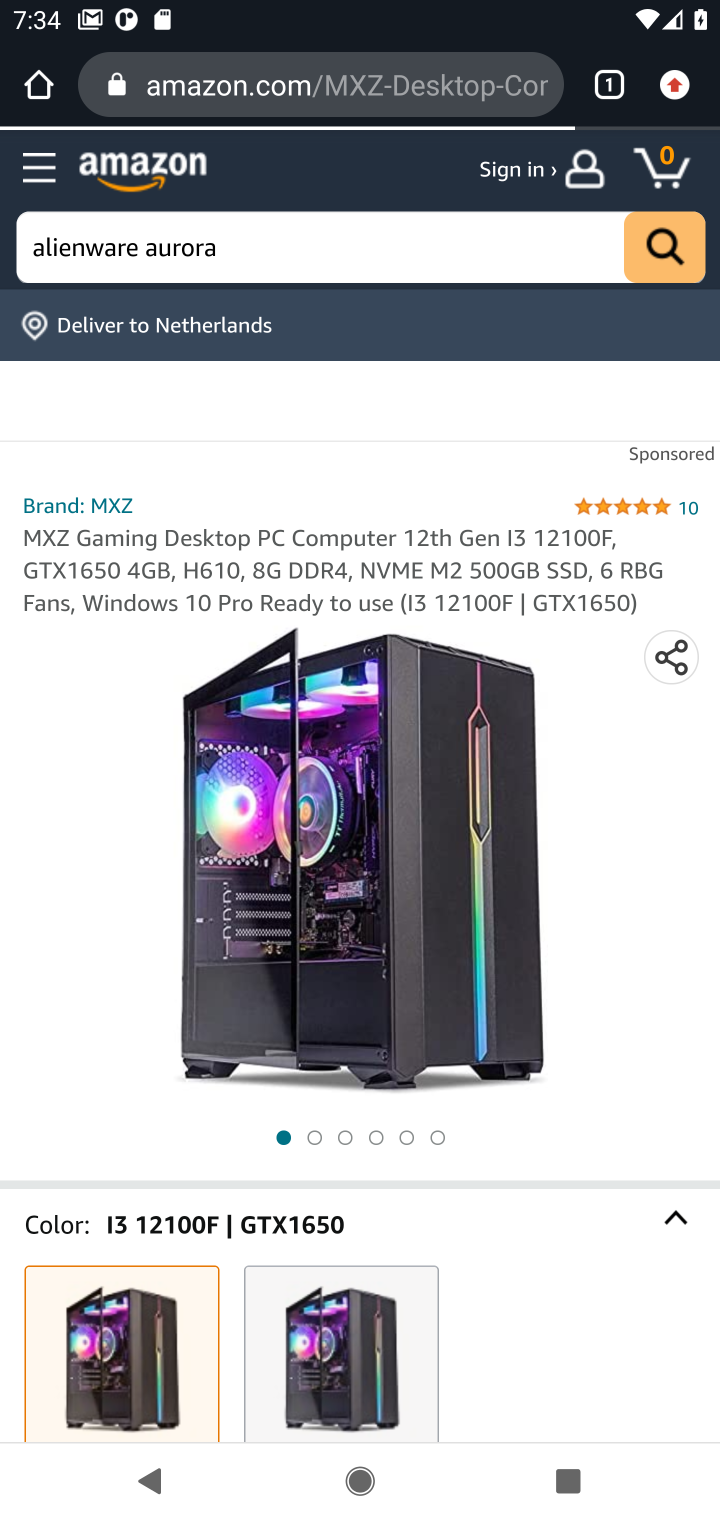
Step 30: drag from (539, 1176) to (419, 364)
Your task to perform on an android device: Clear the shopping cart on amazon.com. Add alienware aurora to the cart on amazon.com, then select checkout. Image 31: 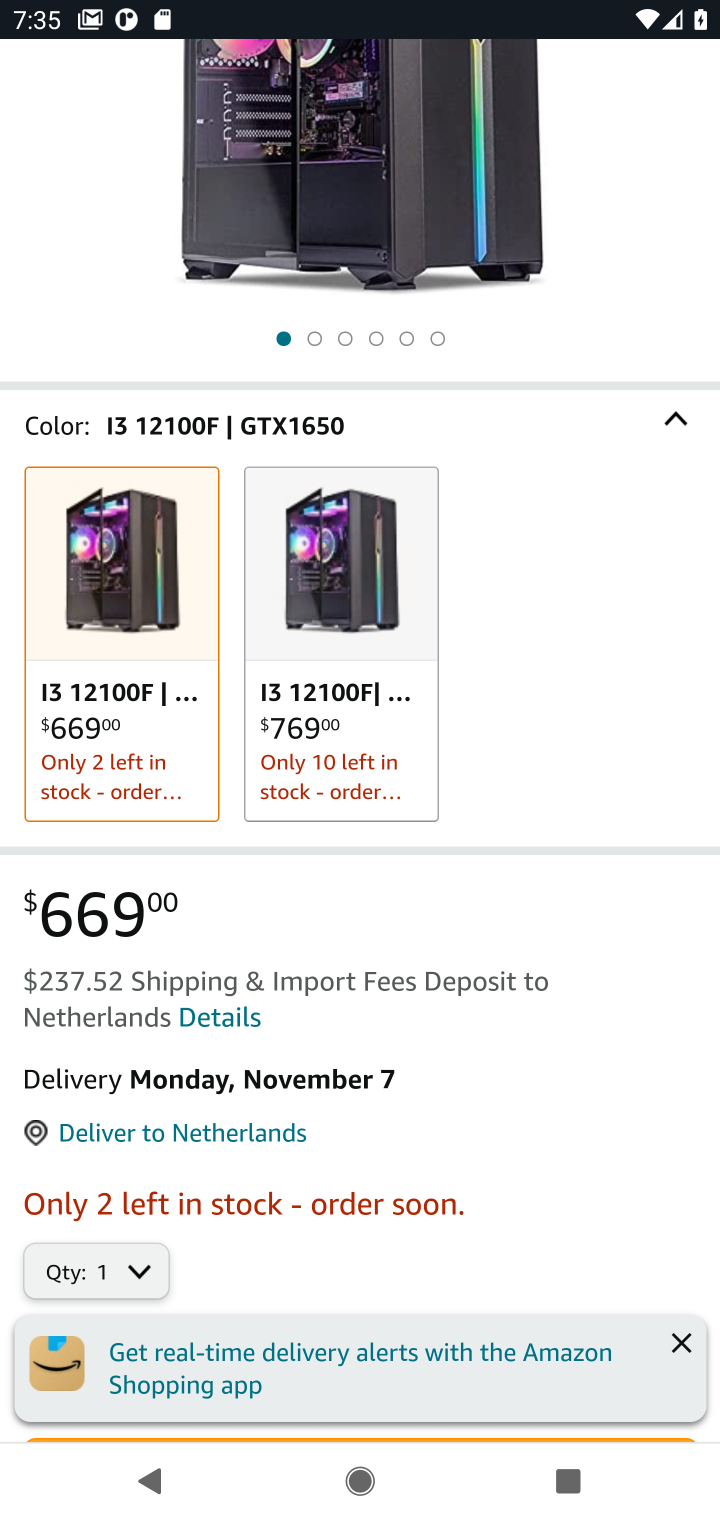
Step 31: click (320, 1372)
Your task to perform on an android device: Clear the shopping cart on amazon.com. Add alienware aurora to the cart on amazon.com, then select checkout. Image 32: 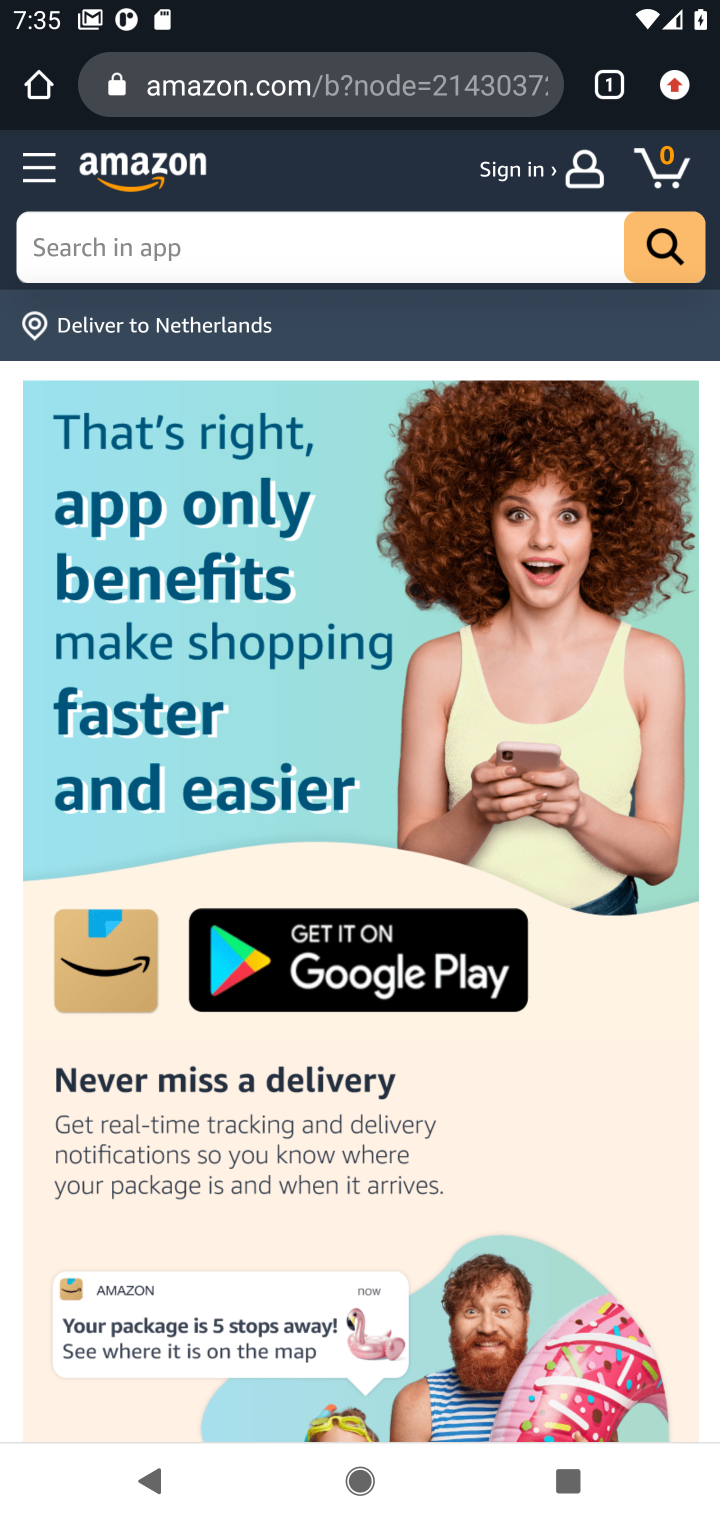
Step 32: task complete